Your task to perform on an android device: Search for "alienware area 51" on amazon.com, select the first entry, add it to the cart, then select checkout. Image 0: 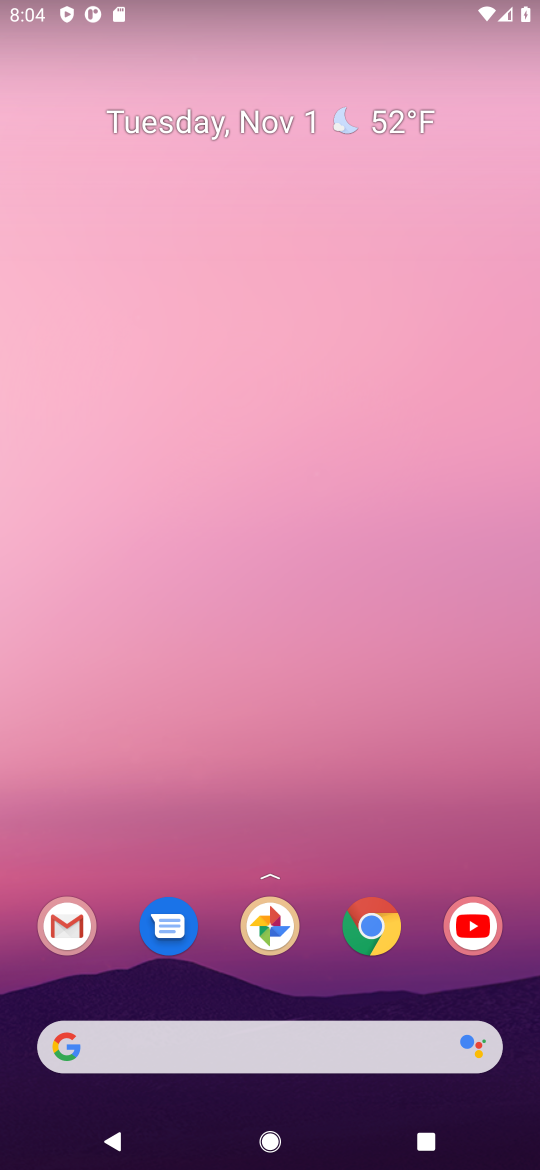
Step 0: click (348, 930)
Your task to perform on an android device: Search for "alienware area 51" on amazon.com, select the first entry, add it to the cart, then select checkout. Image 1: 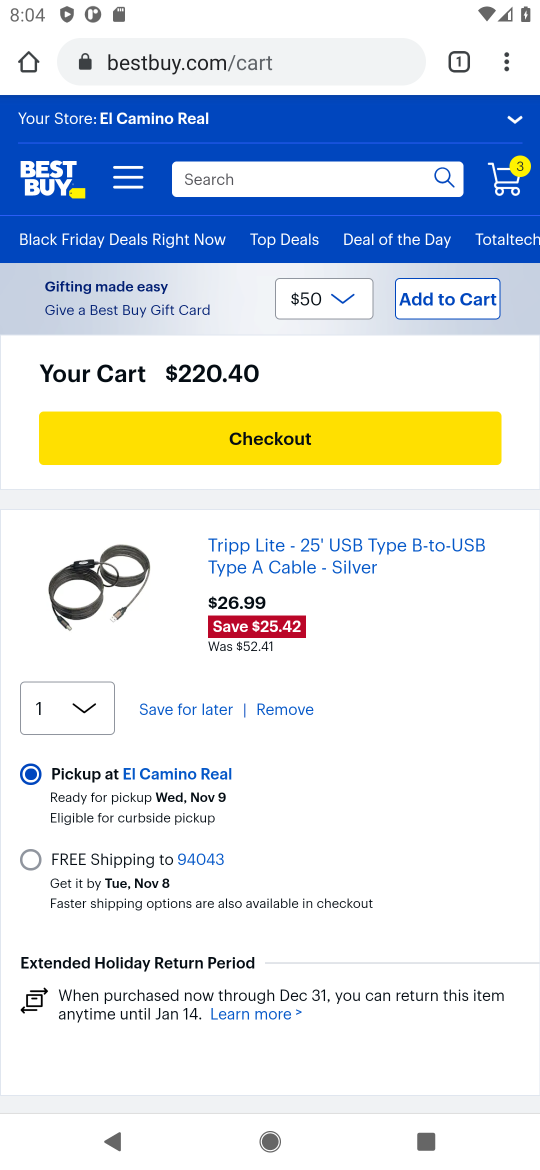
Step 1: click (180, 62)
Your task to perform on an android device: Search for "alienware area 51" on amazon.com, select the first entry, add it to the cart, then select checkout. Image 2: 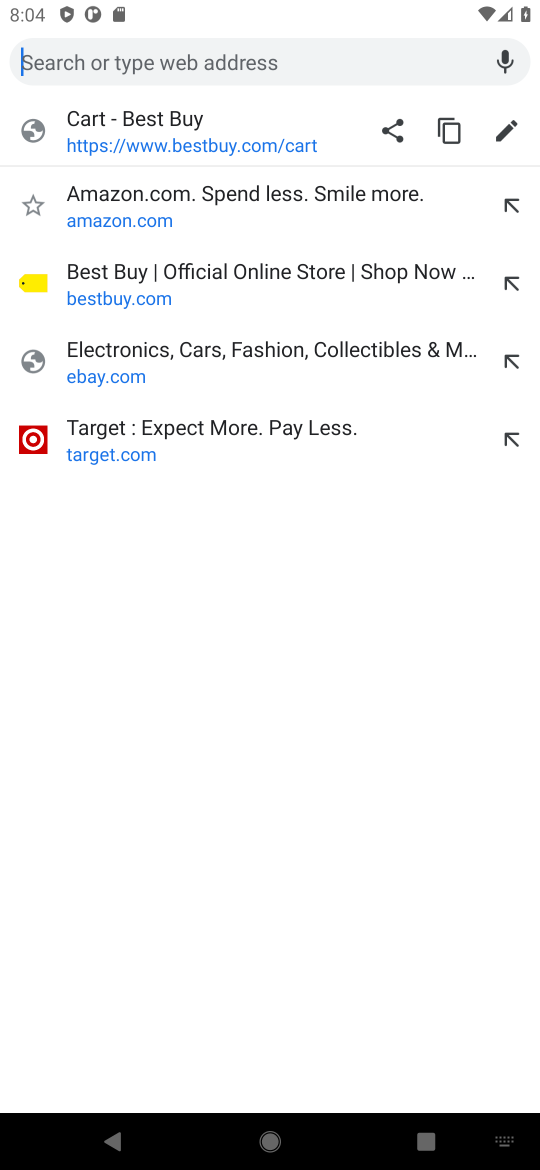
Step 2: type "amazon.com"
Your task to perform on an android device: Search for "alienware area 51" on amazon.com, select the first entry, add it to the cart, then select checkout. Image 3: 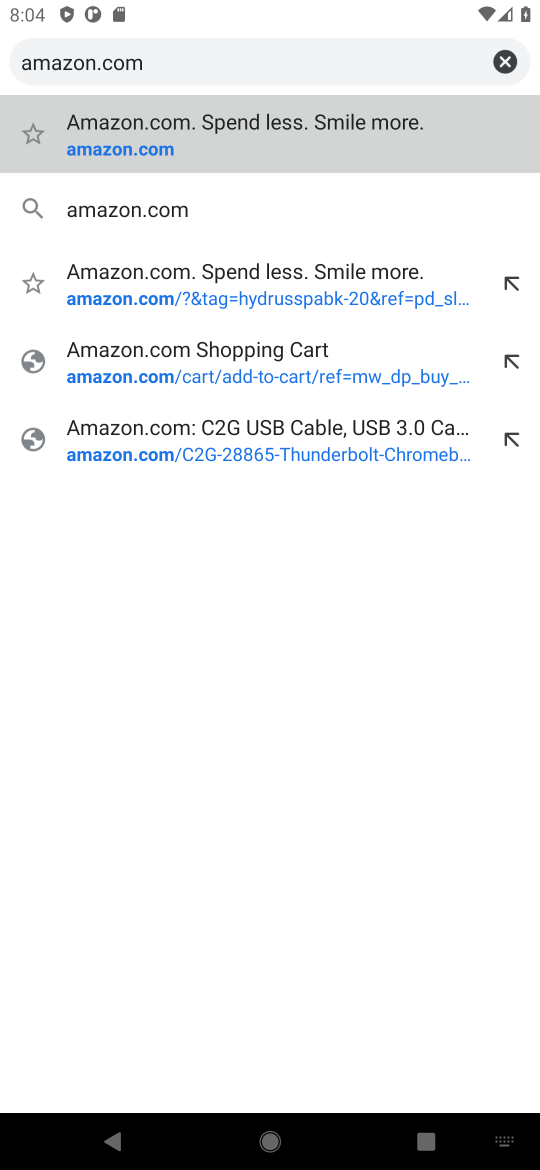
Step 3: click (112, 142)
Your task to perform on an android device: Search for "alienware area 51" on amazon.com, select the first entry, add it to the cart, then select checkout. Image 4: 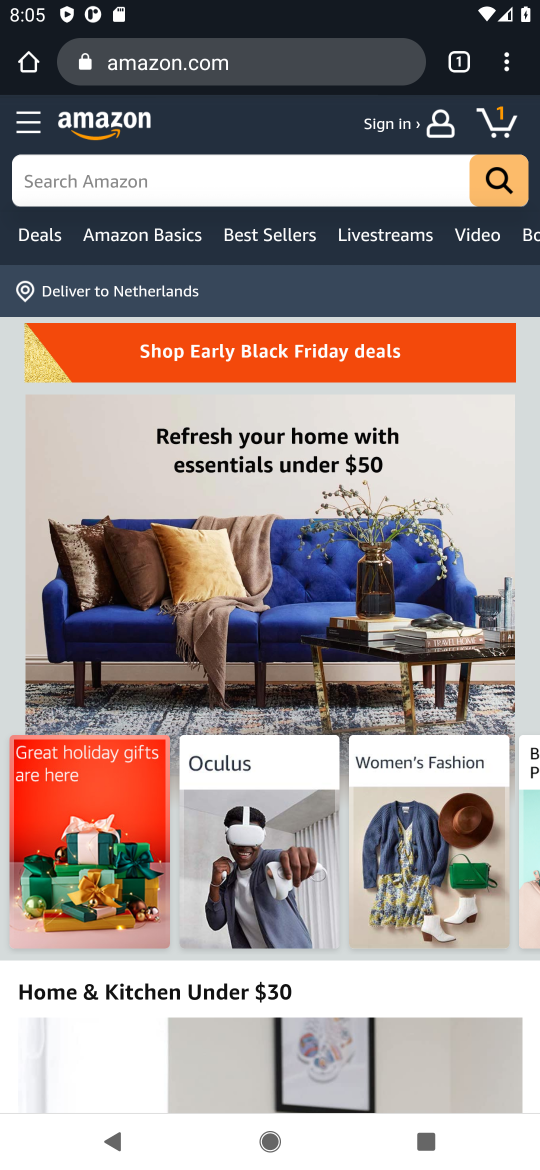
Step 4: click (97, 177)
Your task to perform on an android device: Search for "alienware area 51" on amazon.com, select the first entry, add it to the cart, then select checkout. Image 5: 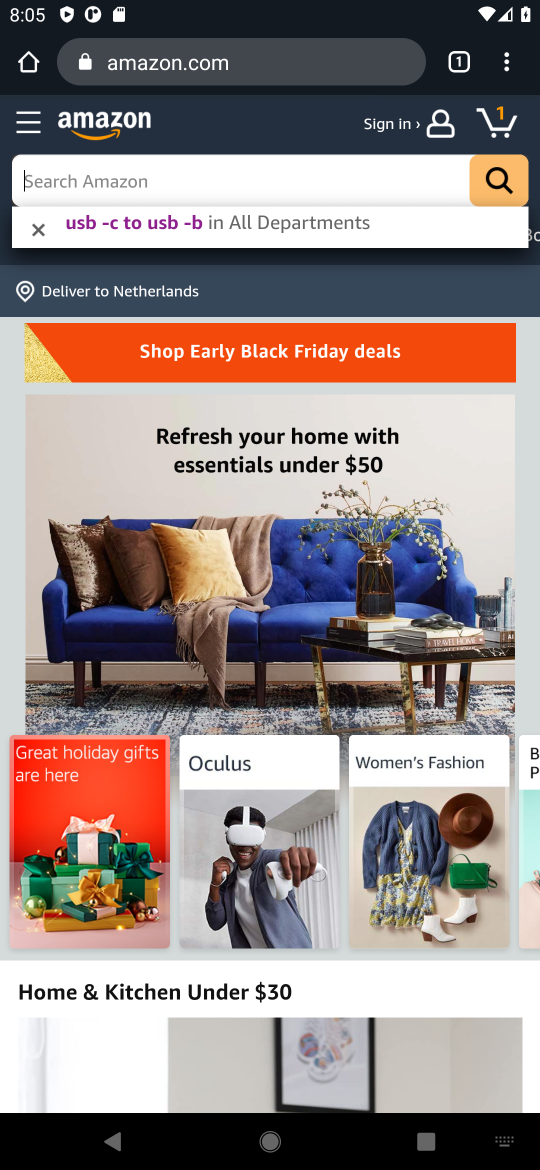
Step 5: type "alienware area 51"
Your task to perform on an android device: Search for "alienware area 51" on amazon.com, select the first entry, add it to the cart, then select checkout. Image 6: 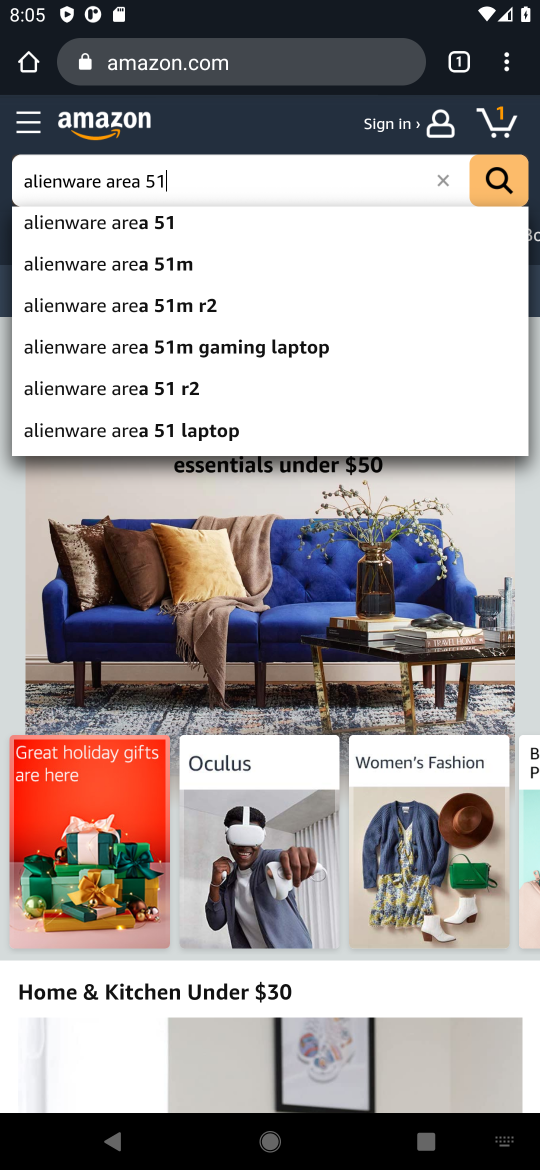
Step 6: type ""
Your task to perform on an android device: Search for "alienware area 51" on amazon.com, select the first entry, add it to the cart, then select checkout. Image 7: 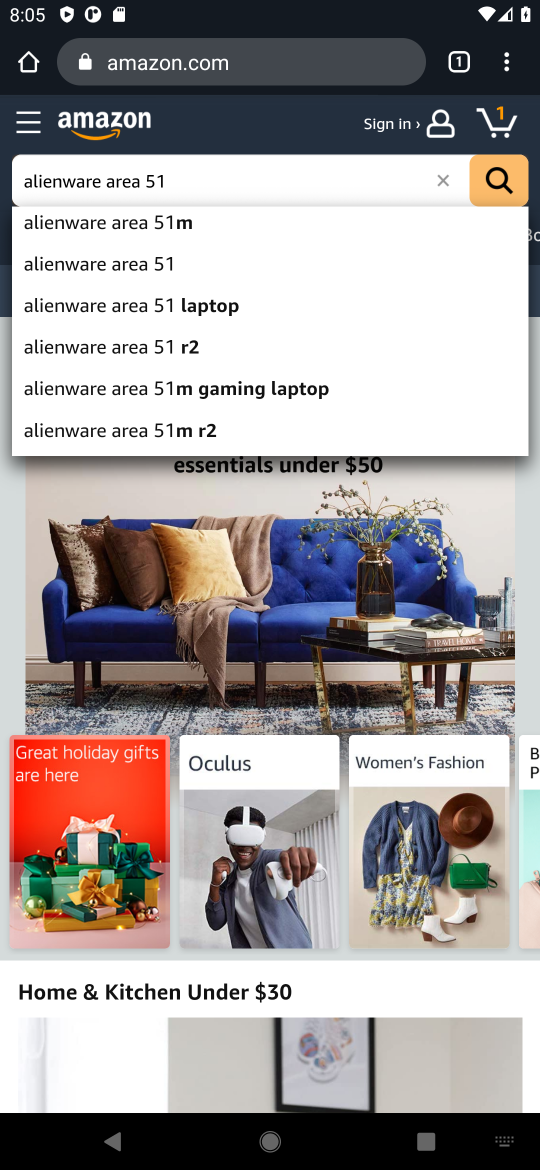
Step 7: click (119, 216)
Your task to perform on an android device: Search for "alienware area 51" on amazon.com, select the first entry, add it to the cart, then select checkout. Image 8: 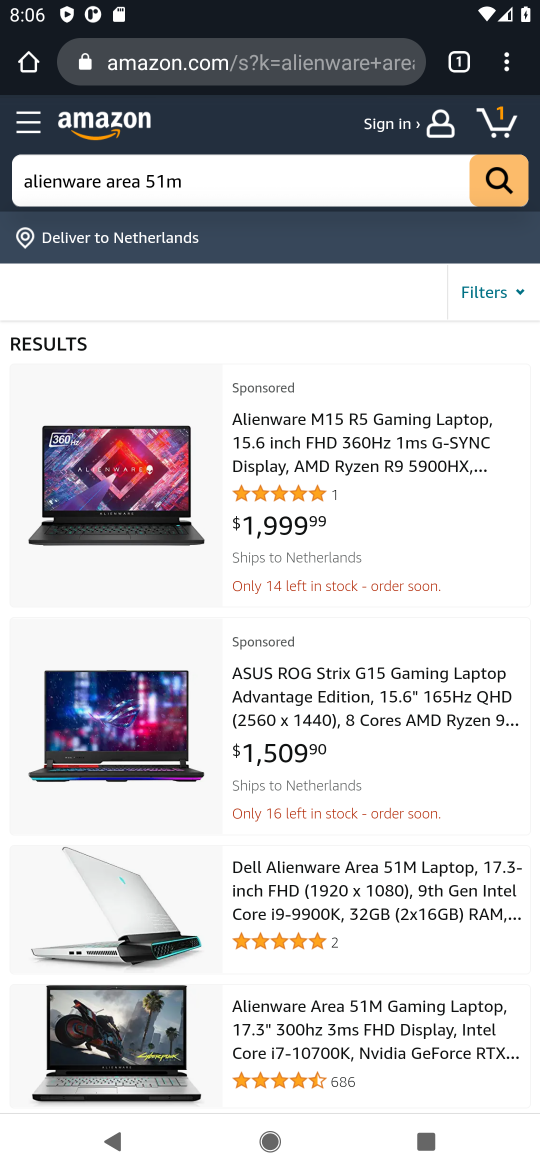
Step 8: click (296, 425)
Your task to perform on an android device: Search for "alienware area 51" on amazon.com, select the first entry, add it to the cart, then select checkout. Image 9: 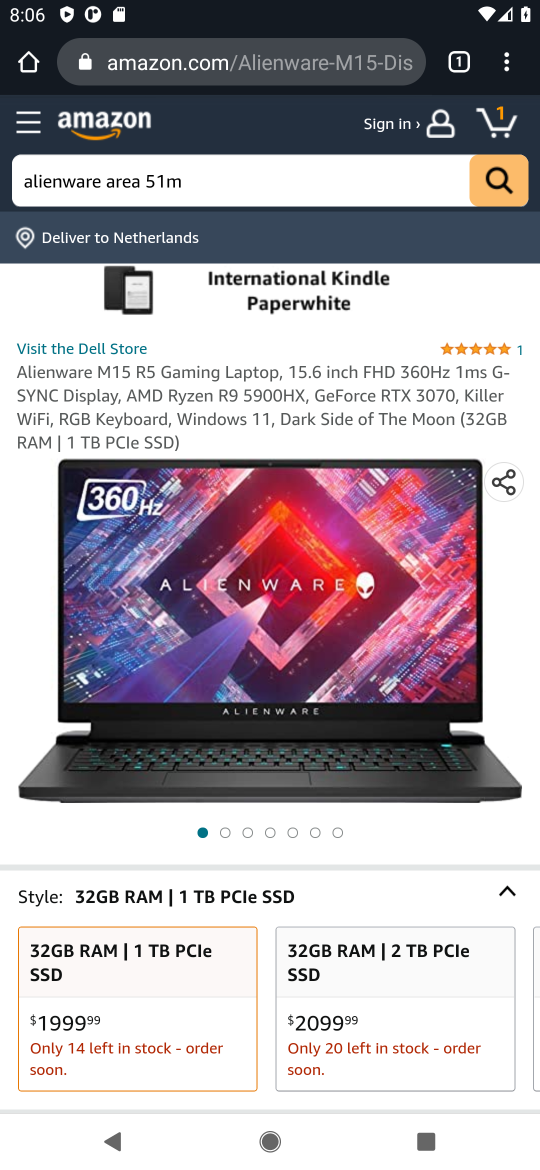
Step 9: drag from (188, 674) to (211, 436)
Your task to perform on an android device: Search for "alienware area 51" on amazon.com, select the first entry, add it to the cart, then select checkout. Image 10: 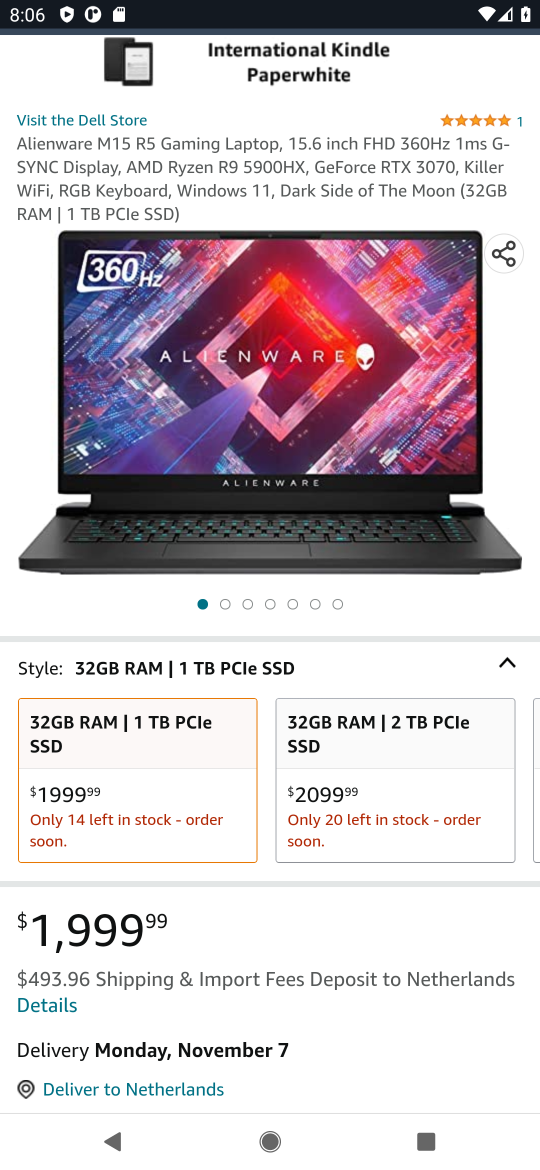
Step 10: drag from (130, 975) to (244, 275)
Your task to perform on an android device: Search for "alienware area 51" on amazon.com, select the first entry, add it to the cart, then select checkout. Image 11: 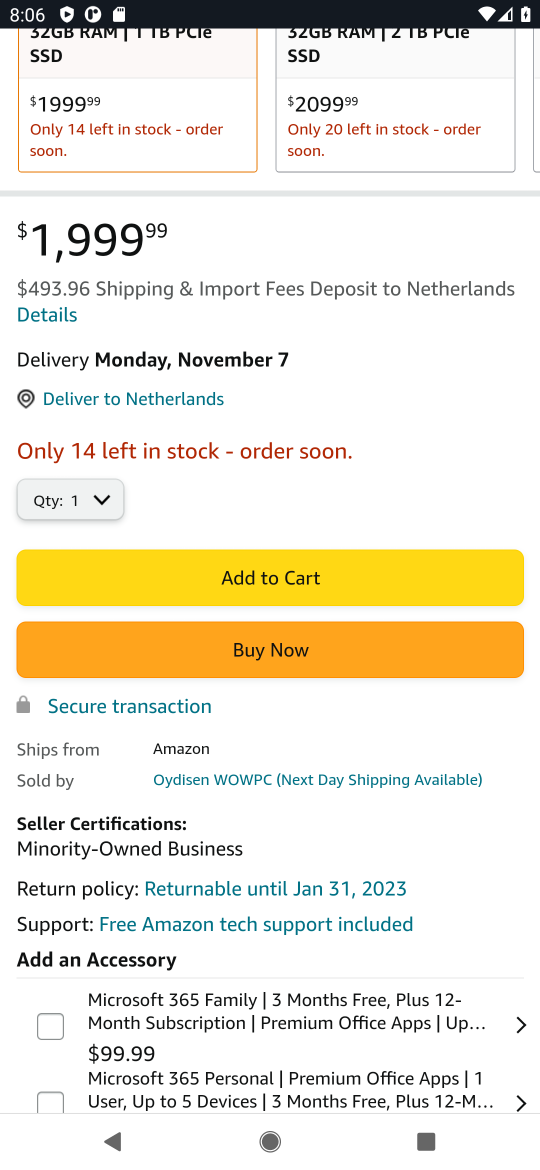
Step 11: click (231, 574)
Your task to perform on an android device: Search for "alienware area 51" on amazon.com, select the first entry, add it to the cart, then select checkout. Image 12: 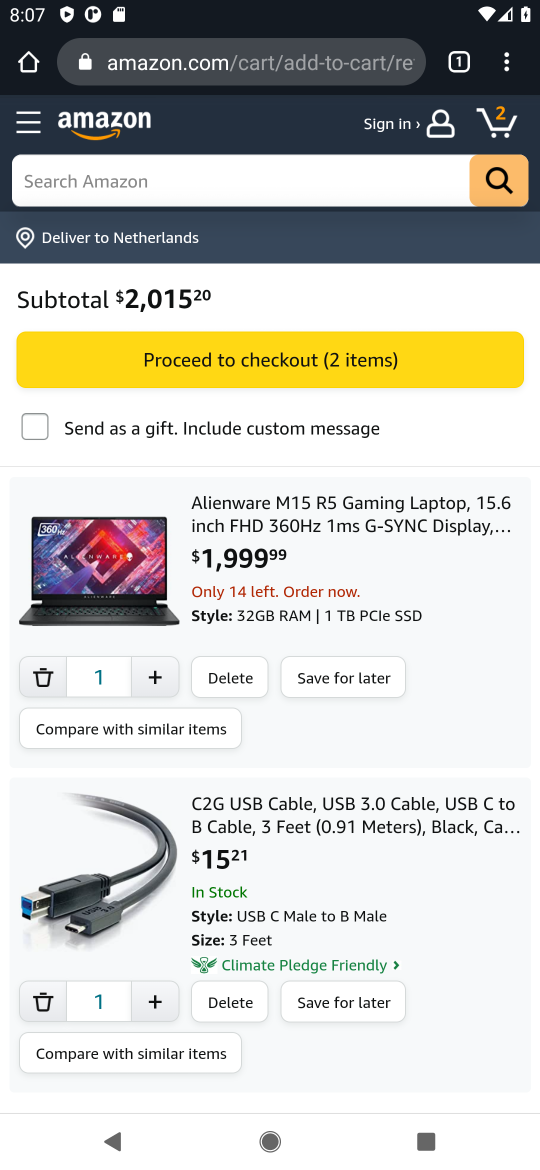
Step 12: click (232, 368)
Your task to perform on an android device: Search for "alienware area 51" on amazon.com, select the first entry, add it to the cart, then select checkout. Image 13: 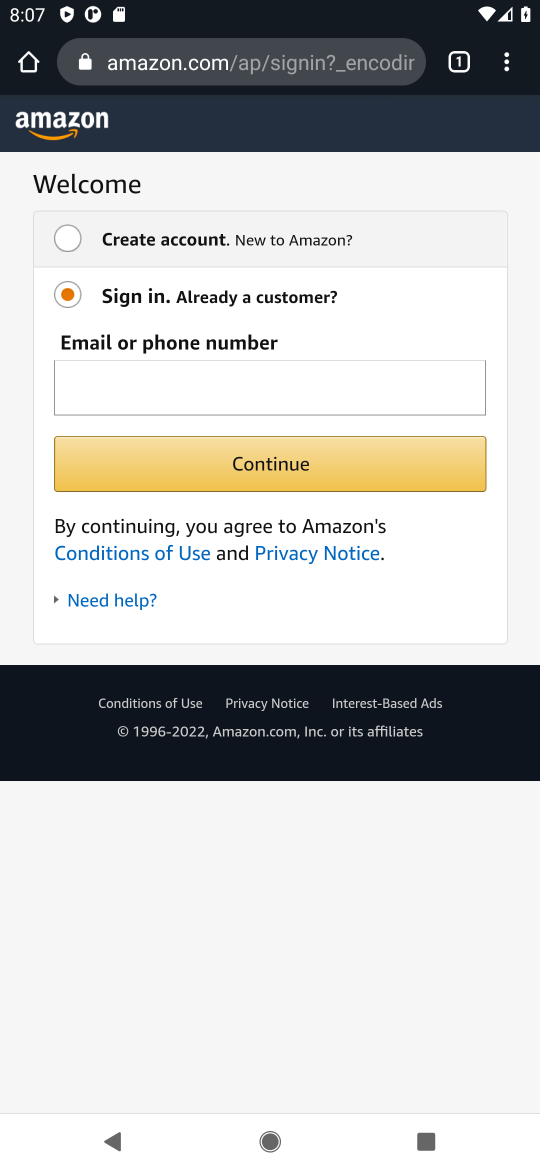
Step 13: press home button
Your task to perform on an android device: Search for "alienware area 51" on amazon.com, select the first entry, add it to the cart, then select checkout. Image 14: 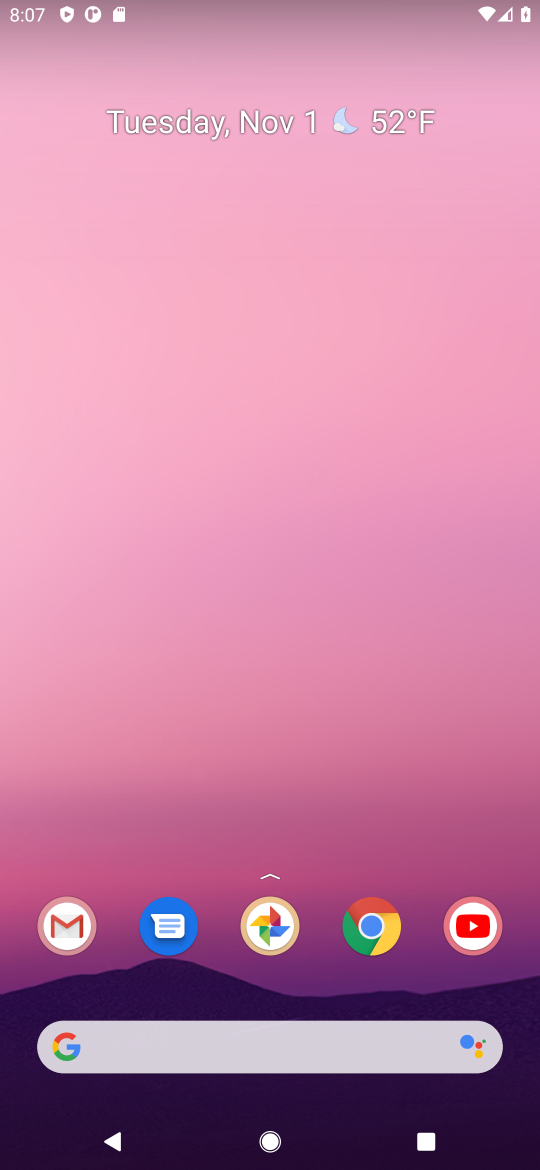
Step 14: click (122, 13)
Your task to perform on an android device: Search for "alienware area 51" on amazon.com, select the first entry, add it to the cart, then select checkout. Image 15: 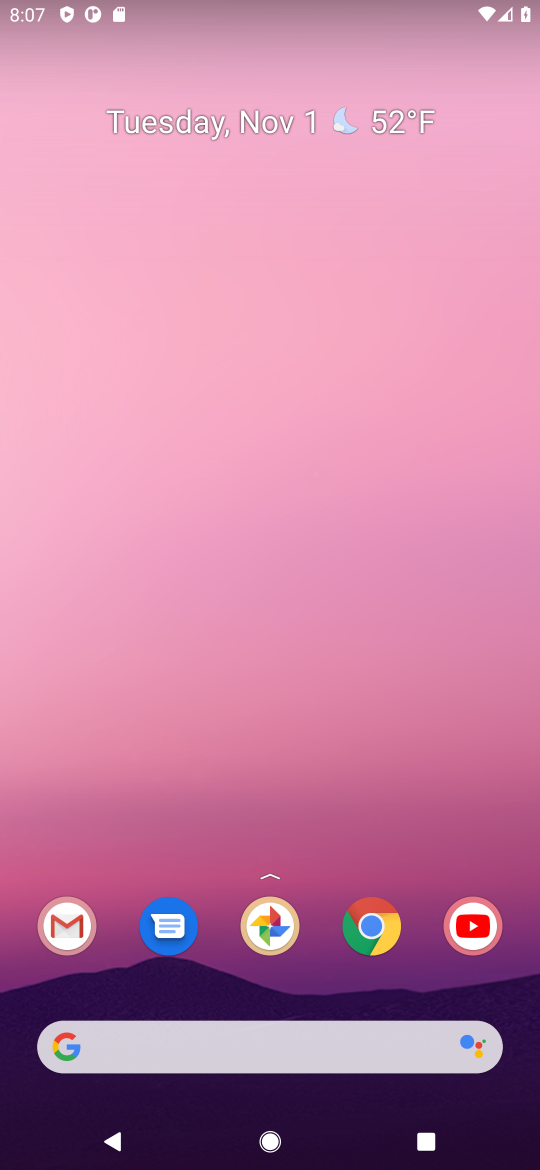
Step 15: click (369, 936)
Your task to perform on an android device: Search for "alienware area 51" on amazon.com, select the first entry, add it to the cart, then select checkout. Image 16: 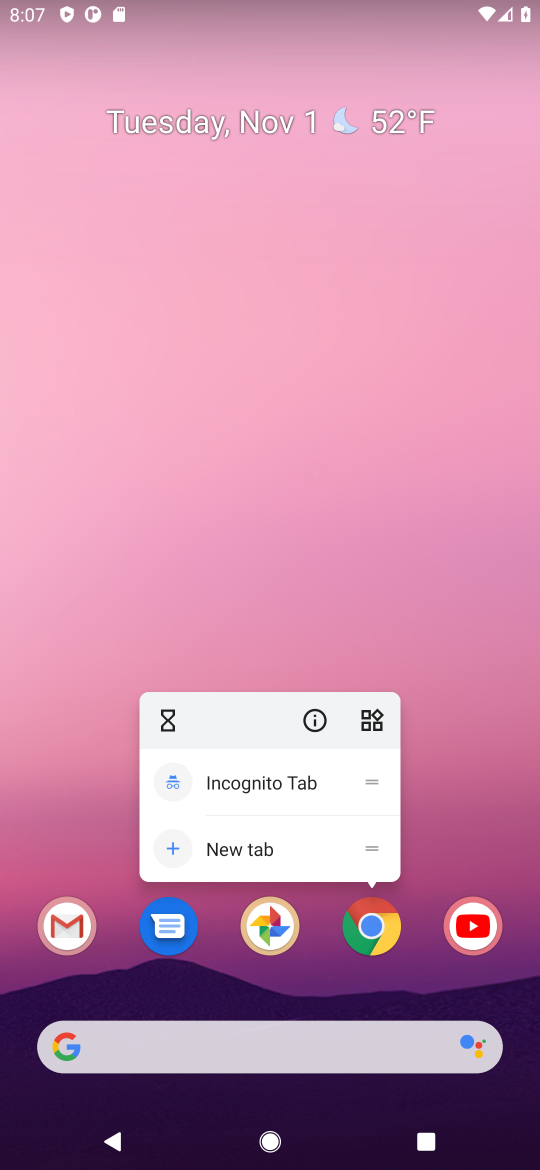
Step 16: click (384, 918)
Your task to perform on an android device: Search for "alienware area 51" on amazon.com, select the first entry, add it to the cart, then select checkout. Image 17: 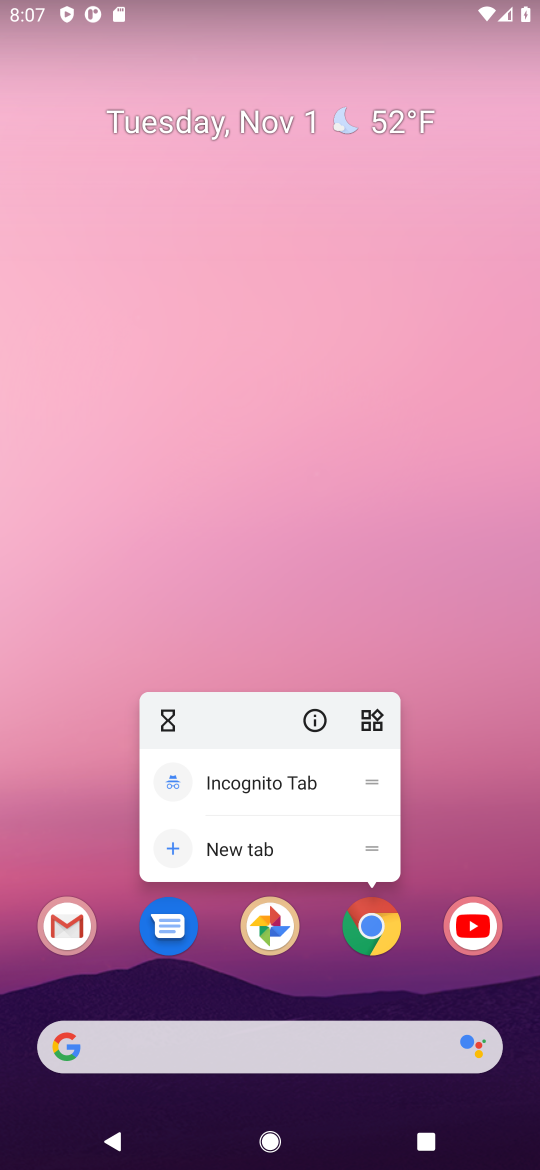
Step 17: click (391, 905)
Your task to perform on an android device: Search for "alienware area 51" on amazon.com, select the first entry, add it to the cart, then select checkout. Image 18: 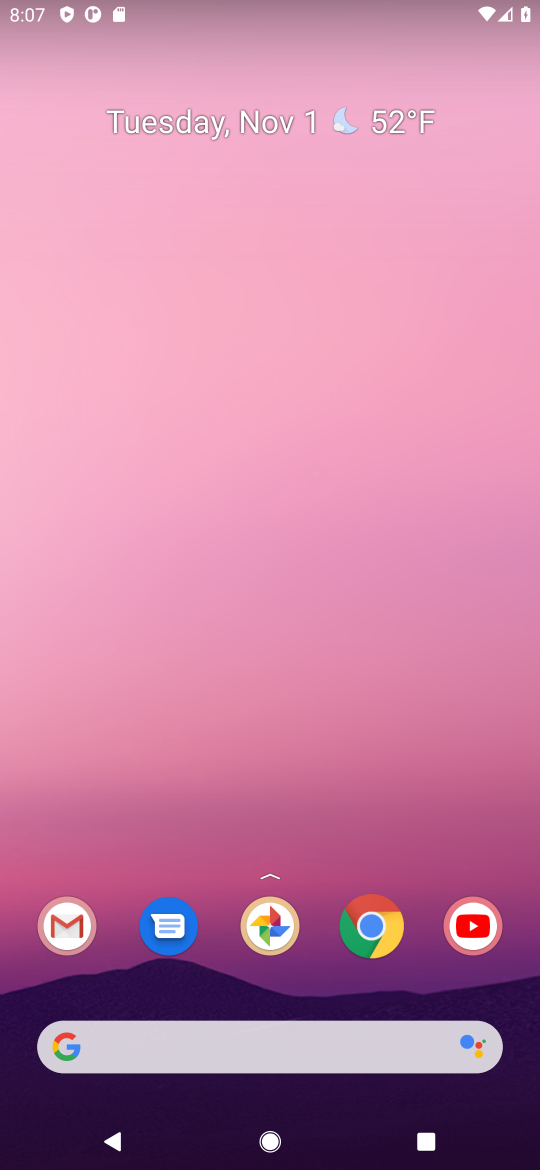
Step 18: click (384, 922)
Your task to perform on an android device: Search for "alienware area 51" on amazon.com, select the first entry, add it to the cart, then select checkout. Image 19: 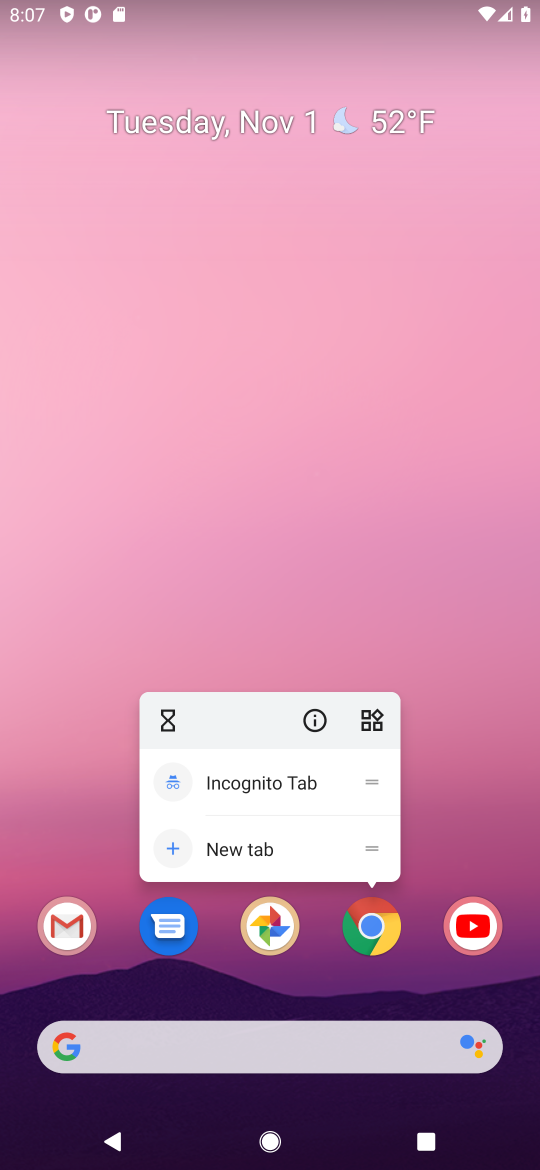
Step 19: click (383, 922)
Your task to perform on an android device: Search for "alienware area 51" on amazon.com, select the first entry, add it to the cart, then select checkout. Image 20: 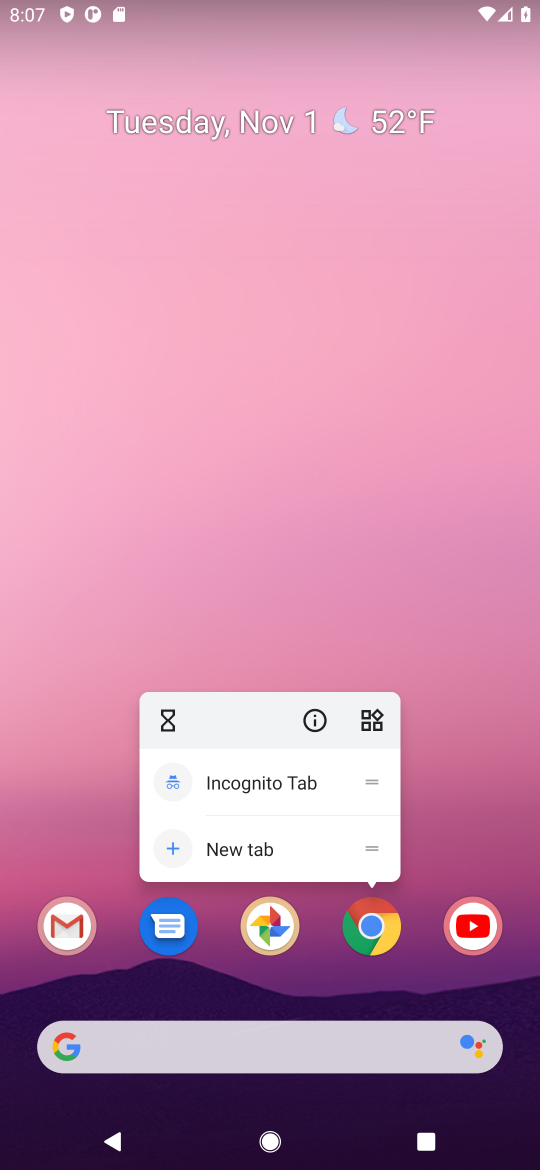
Step 20: click (385, 950)
Your task to perform on an android device: Search for "alienware area 51" on amazon.com, select the first entry, add it to the cart, then select checkout. Image 21: 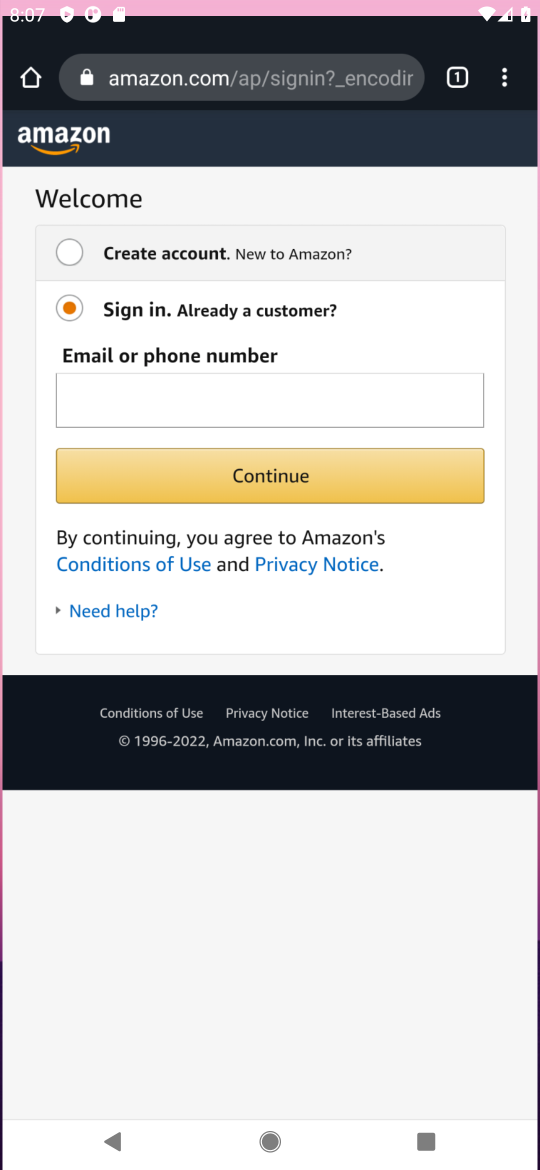
Step 21: press home button
Your task to perform on an android device: Search for "alienware area 51" on amazon.com, select the first entry, add it to the cart, then select checkout. Image 22: 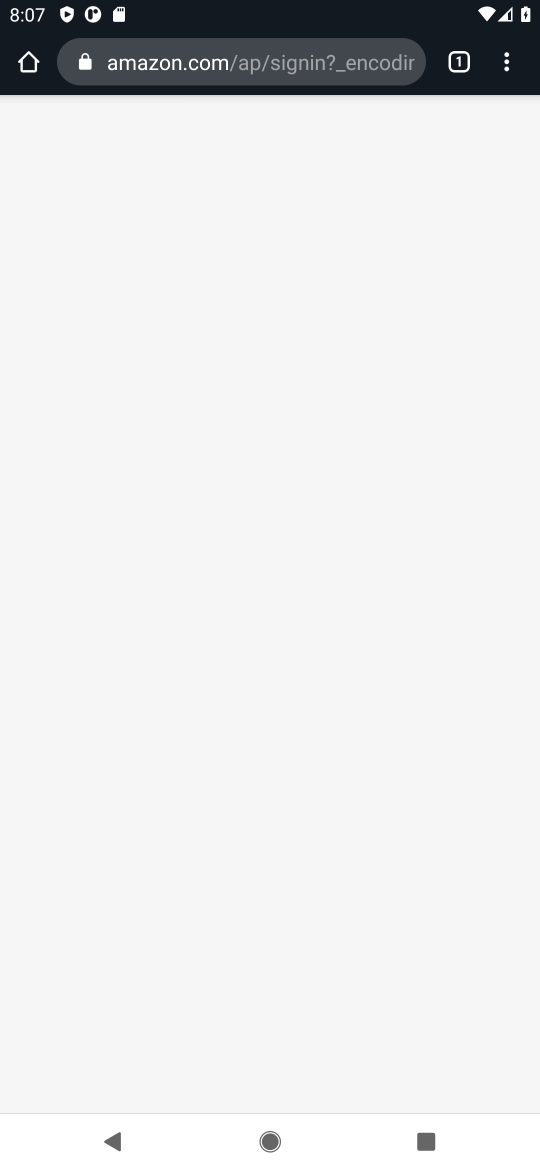
Step 22: press home button
Your task to perform on an android device: Search for "alienware area 51" on amazon.com, select the first entry, add it to the cart, then select checkout. Image 23: 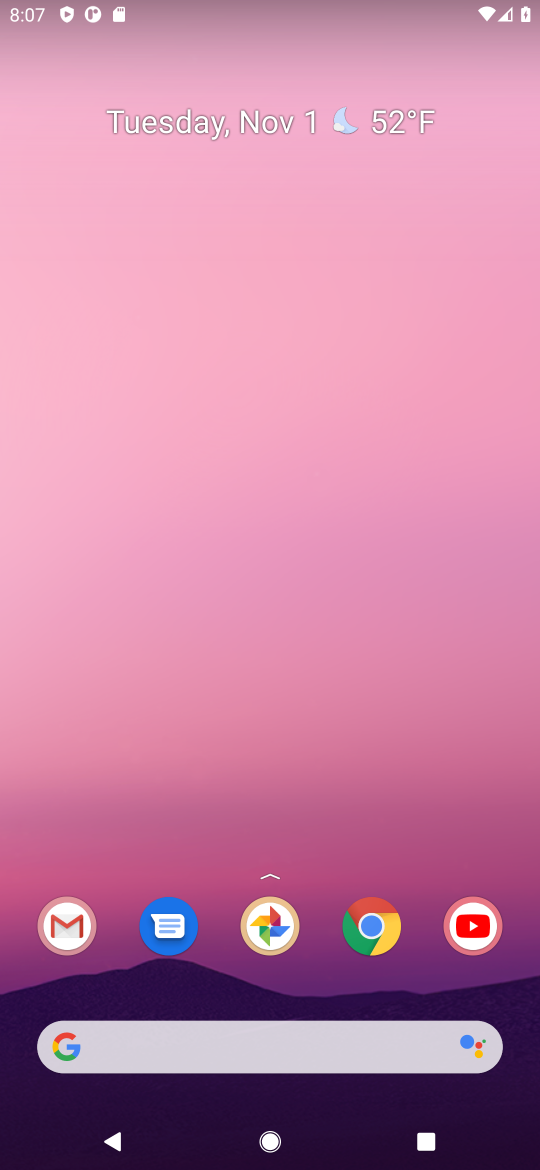
Step 23: click (189, 67)
Your task to perform on an android device: Search for "alienware area 51" on amazon.com, select the first entry, add it to the cart, then select checkout. Image 24: 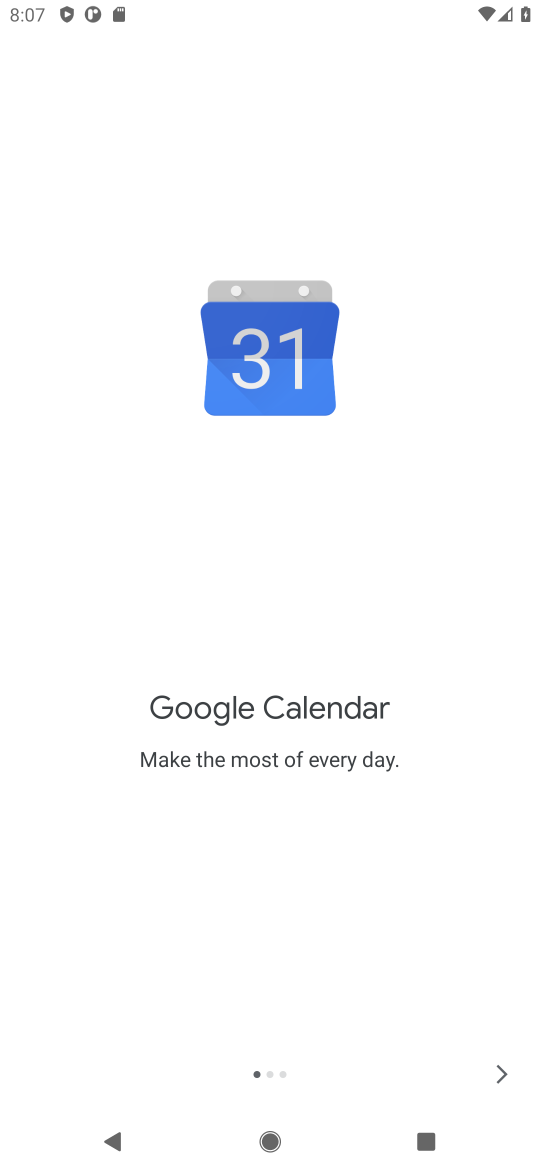
Step 24: press home button
Your task to perform on an android device: Search for "alienware area 51" on amazon.com, select the first entry, add it to the cart, then select checkout. Image 25: 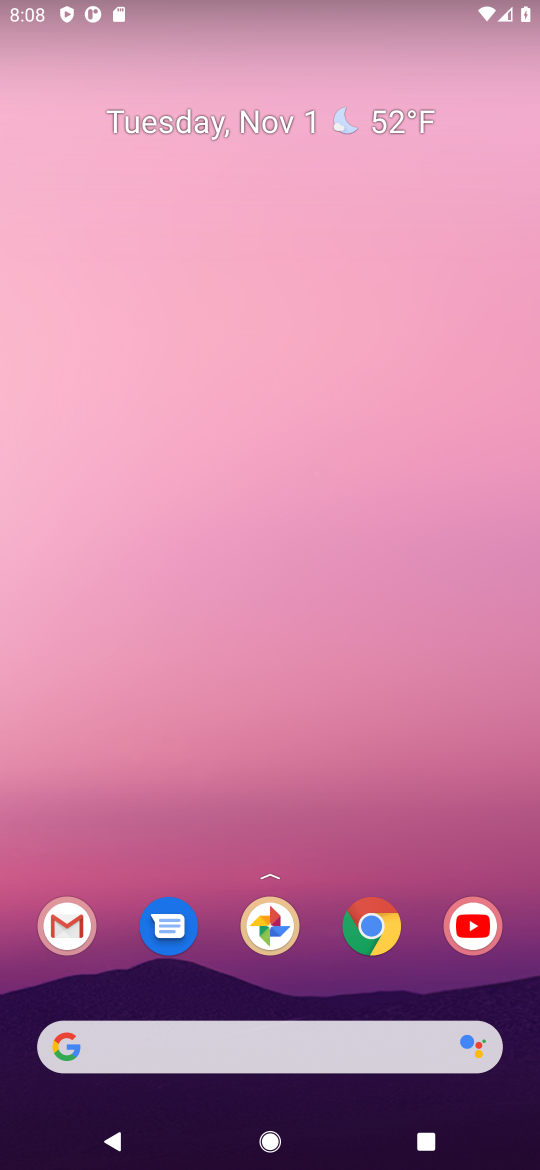
Step 25: click (375, 924)
Your task to perform on an android device: Search for "alienware area 51" on amazon.com, select the first entry, add it to the cart, then select checkout. Image 26: 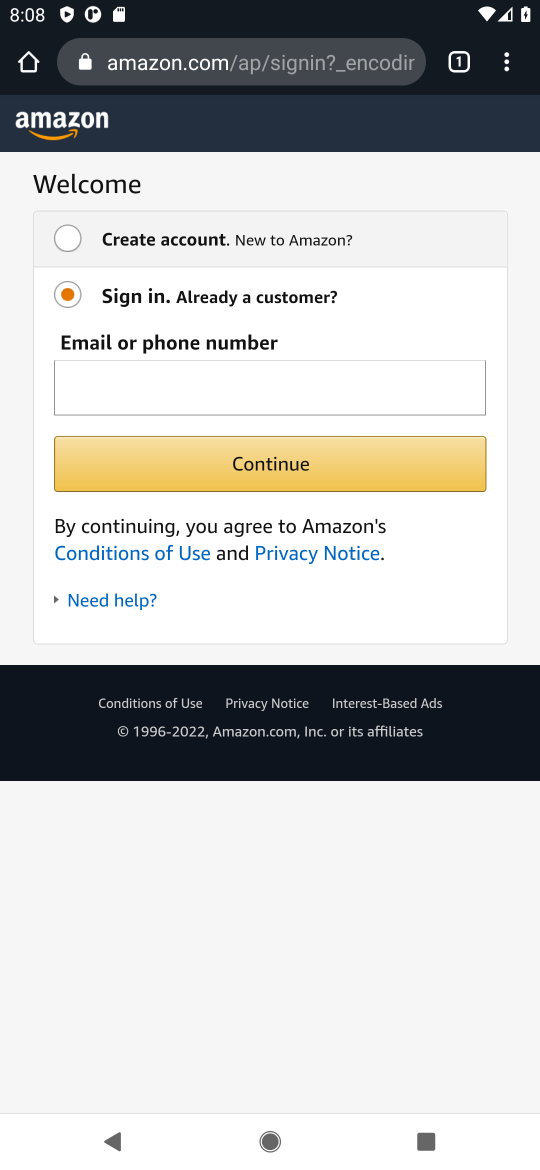
Step 26: click (131, 70)
Your task to perform on an android device: Search for "alienware area 51" on amazon.com, select the first entry, add it to the cart, then select checkout. Image 27: 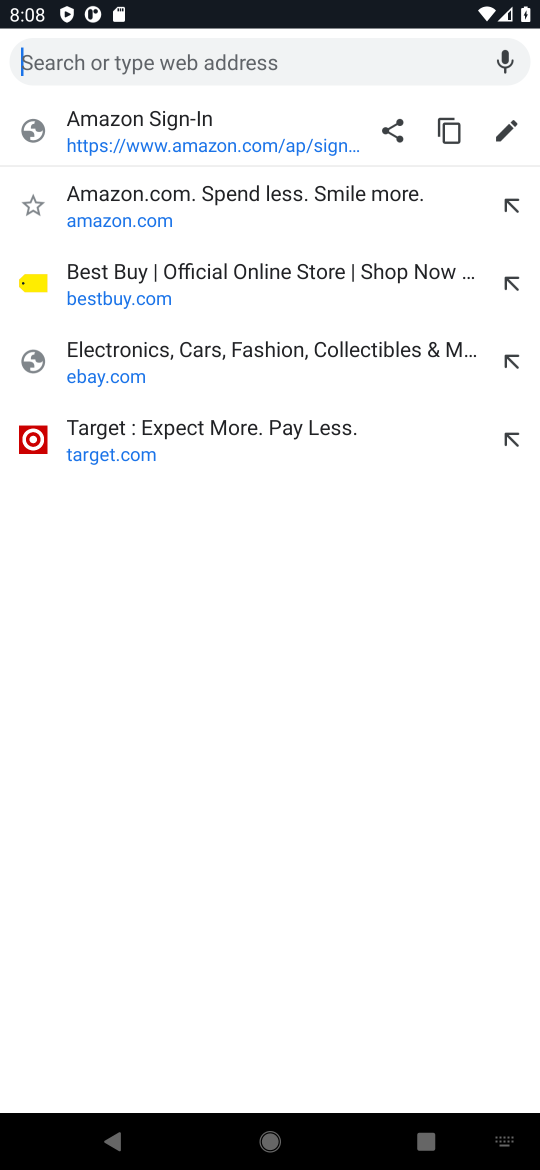
Step 27: click (99, 209)
Your task to perform on an android device: Search for "alienware area 51" on amazon.com, select the first entry, add it to the cart, then select checkout. Image 28: 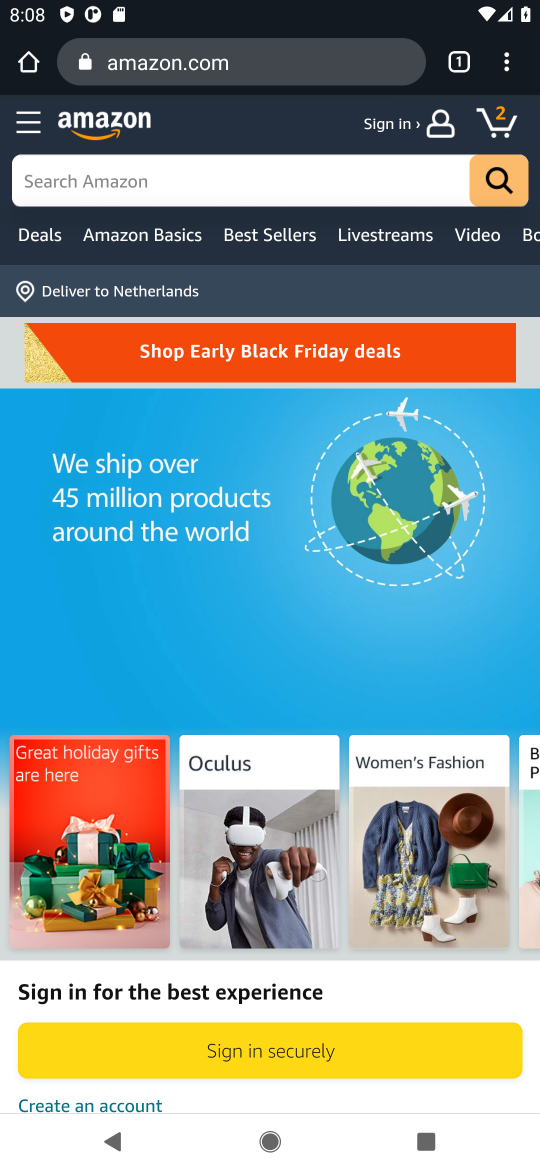
Step 28: click (97, 173)
Your task to perform on an android device: Search for "alienware area 51" on amazon.com, select the first entry, add it to the cart, then select checkout. Image 29: 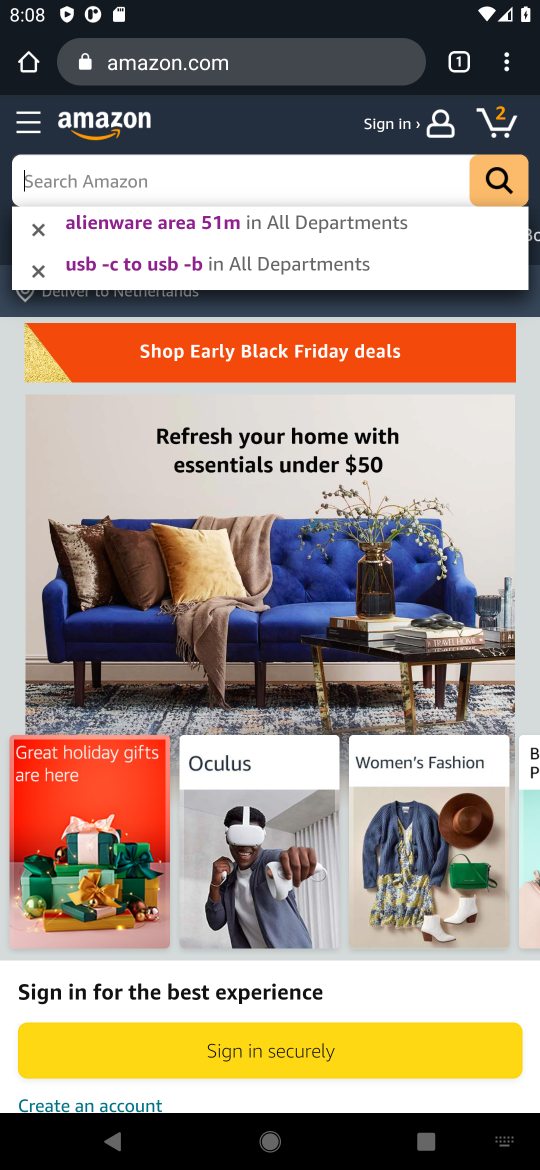
Step 29: type "allenware area 51"
Your task to perform on an android device: Search for "alienware area 51" on amazon.com, select the first entry, add it to the cart, then select checkout. Image 30: 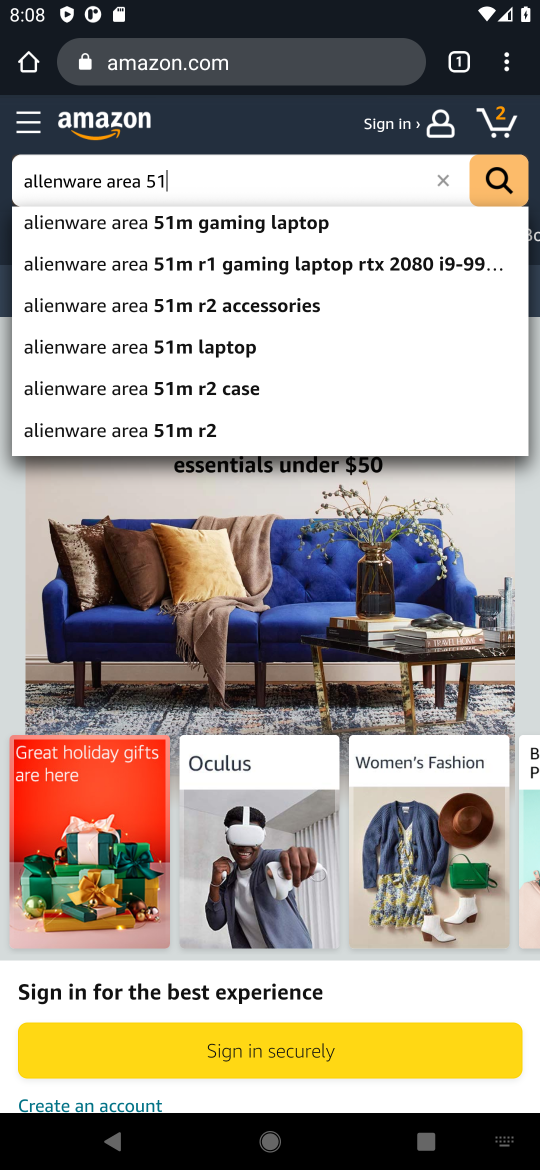
Step 30: type ""
Your task to perform on an android device: Search for "alienware area 51" on amazon.com, select the first entry, add it to the cart, then select checkout. Image 31: 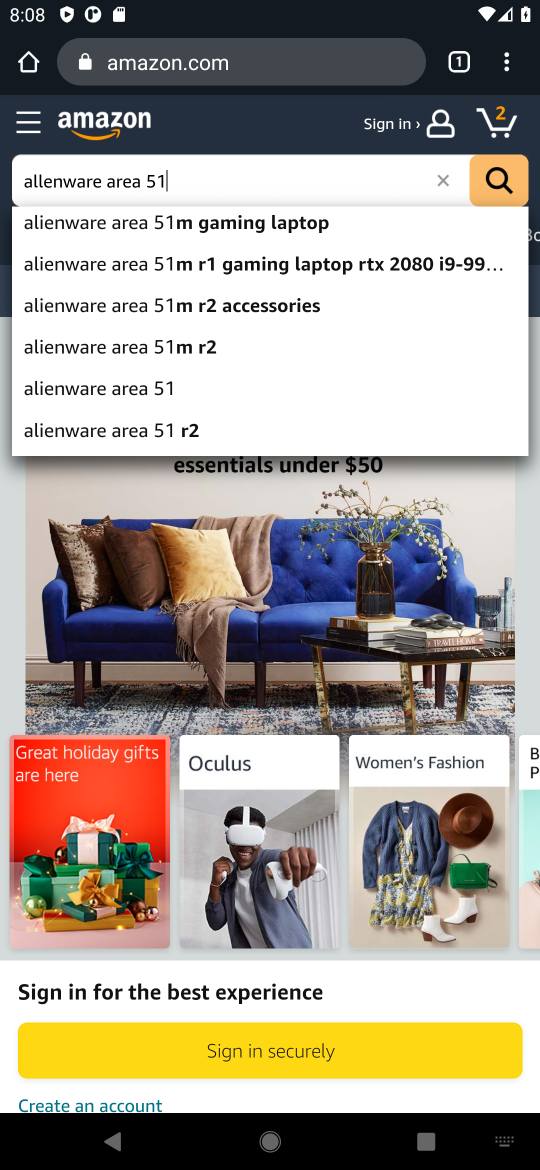
Step 31: click (116, 220)
Your task to perform on an android device: Search for "alienware area 51" on amazon.com, select the first entry, add it to the cart, then select checkout. Image 32: 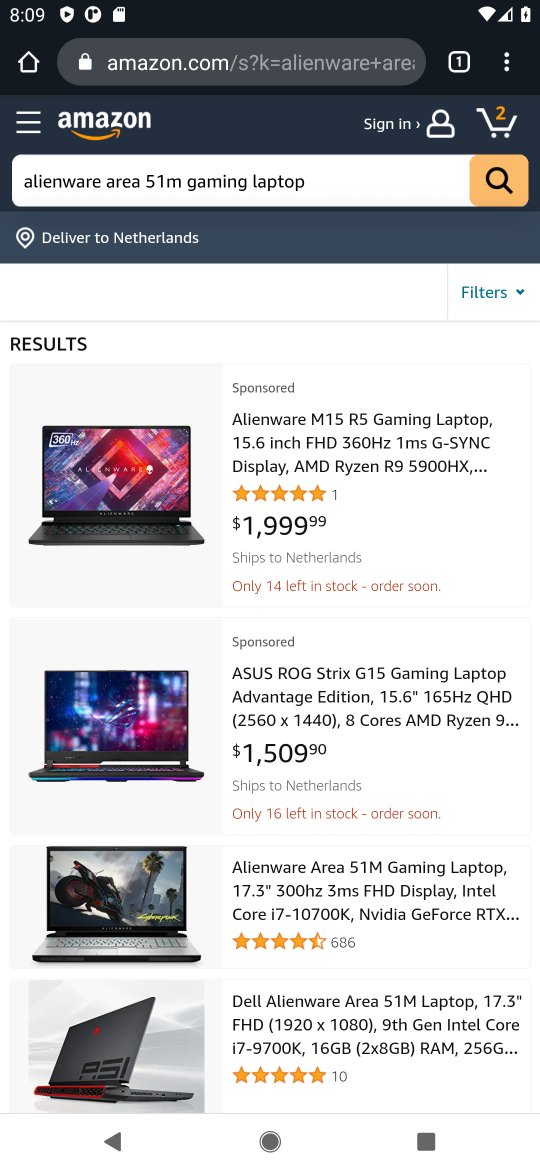
Step 32: drag from (301, 879) to (320, 411)
Your task to perform on an android device: Search for "alienware area 51" on amazon.com, select the first entry, add it to the cart, then select checkout. Image 33: 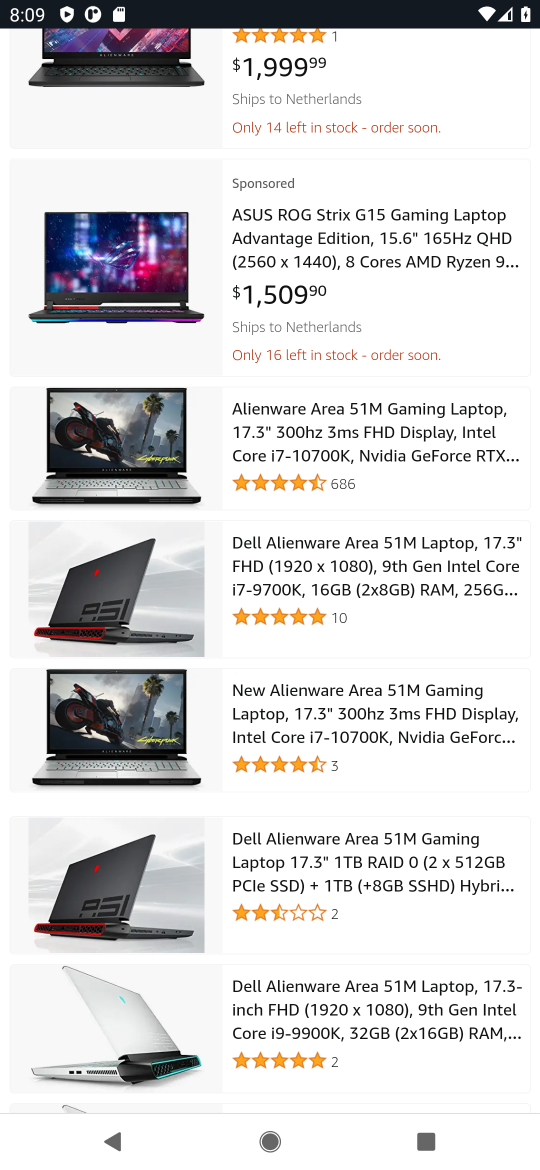
Step 33: click (297, 433)
Your task to perform on an android device: Search for "alienware area 51" on amazon.com, select the first entry, add it to the cart, then select checkout. Image 34: 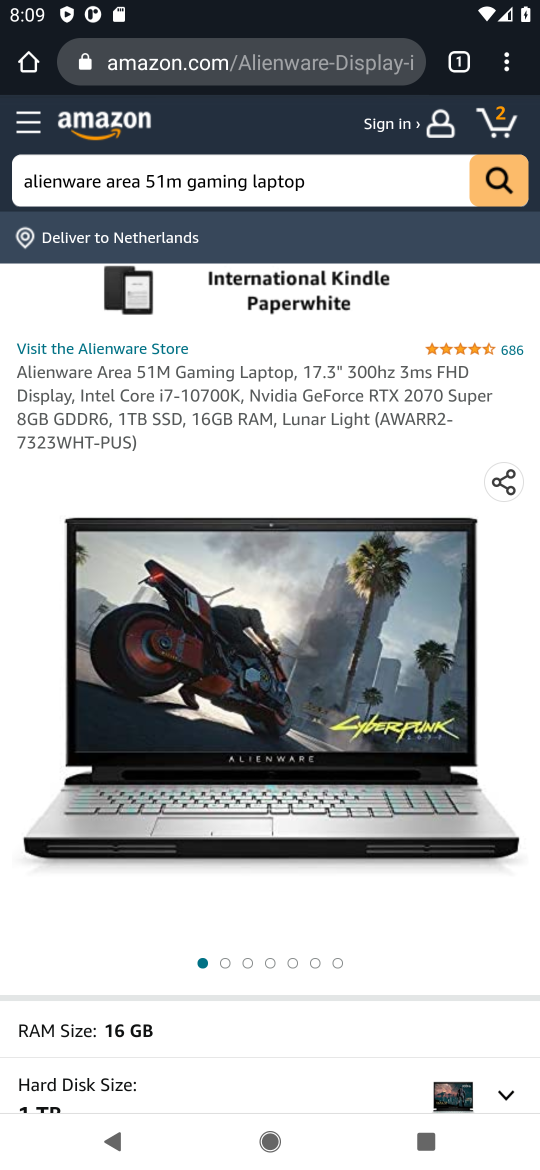
Step 34: drag from (163, 728) to (198, 99)
Your task to perform on an android device: Search for "alienware area 51" on amazon.com, select the first entry, add it to the cart, then select checkout. Image 35: 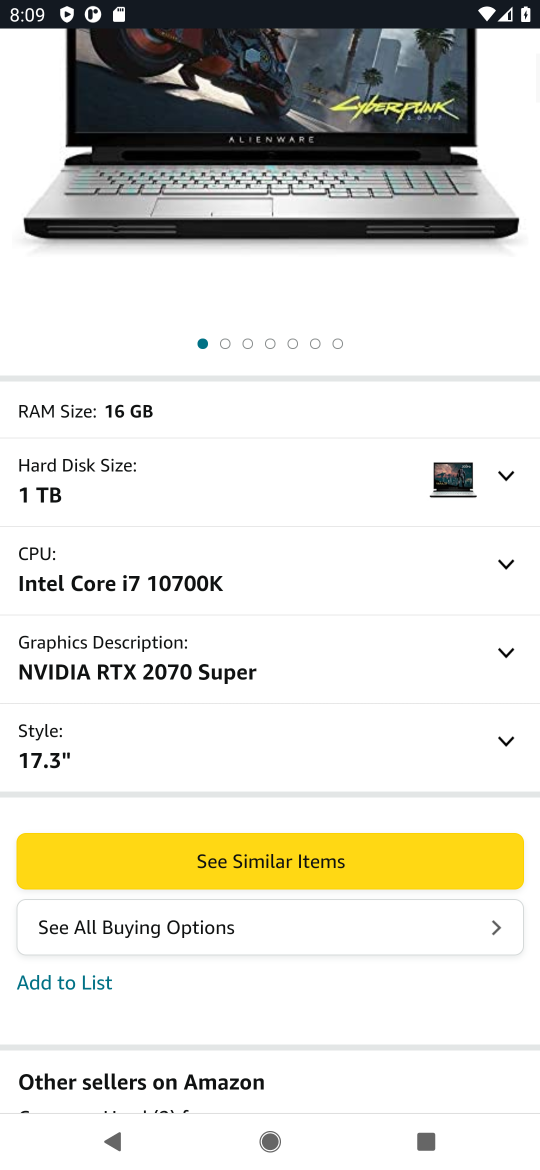
Step 35: drag from (153, 718) to (220, 267)
Your task to perform on an android device: Search for "alienware area 51" on amazon.com, select the first entry, add it to the cart, then select checkout. Image 36: 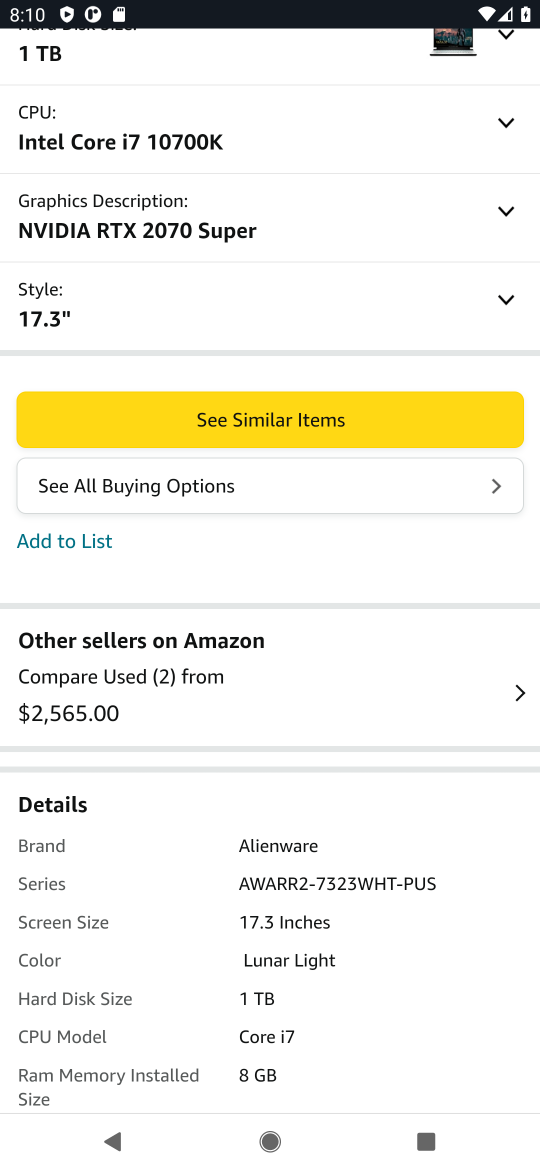
Step 36: drag from (238, 867) to (231, 231)
Your task to perform on an android device: Search for "alienware area 51" on amazon.com, select the first entry, add it to the cart, then select checkout. Image 37: 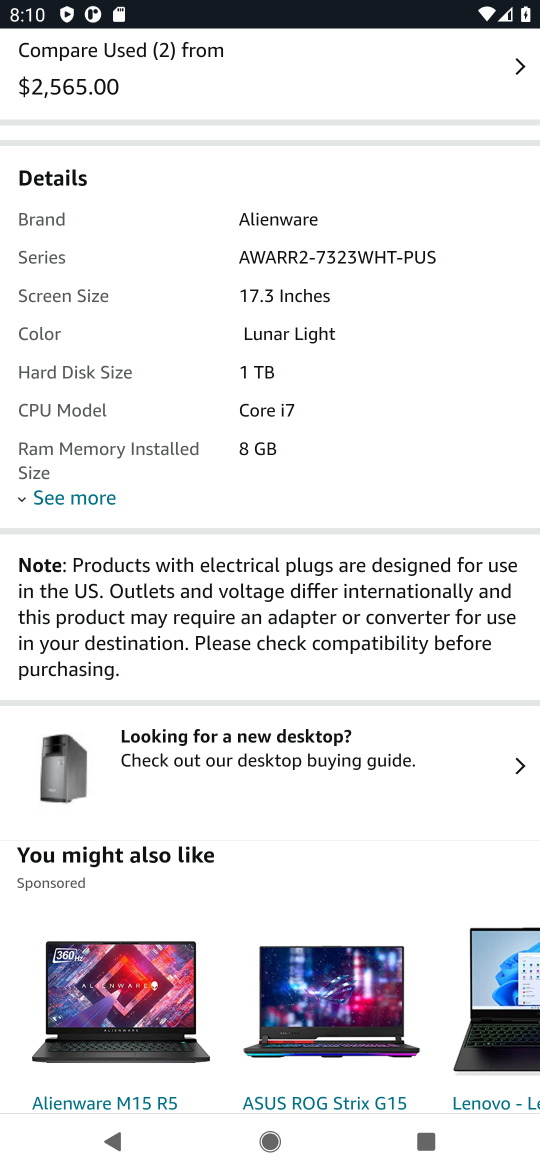
Step 37: drag from (177, 784) to (238, 206)
Your task to perform on an android device: Search for "alienware area 51" on amazon.com, select the first entry, add it to the cart, then select checkout. Image 38: 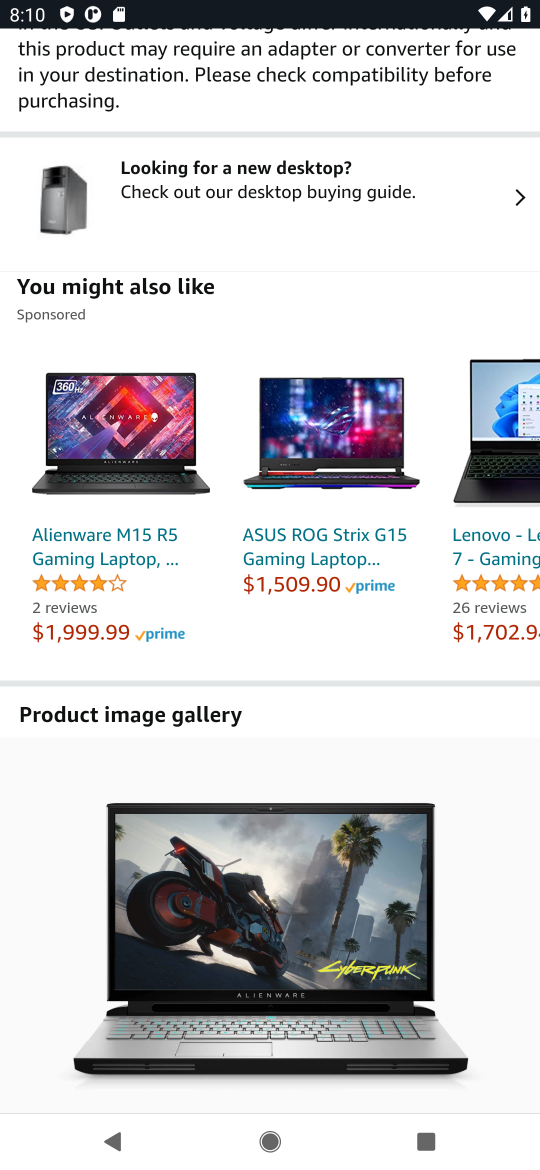
Step 38: drag from (246, 929) to (265, 518)
Your task to perform on an android device: Search for "alienware area 51" on amazon.com, select the first entry, add it to the cart, then select checkout. Image 39: 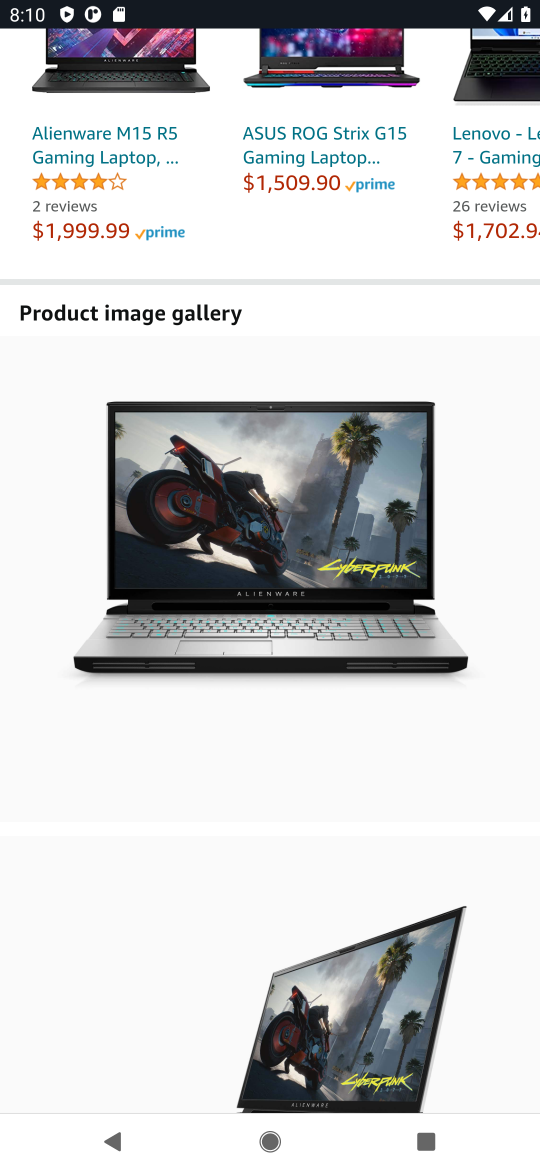
Step 39: drag from (171, 954) to (213, 337)
Your task to perform on an android device: Search for "alienware area 51" on amazon.com, select the first entry, add it to the cart, then select checkout. Image 40: 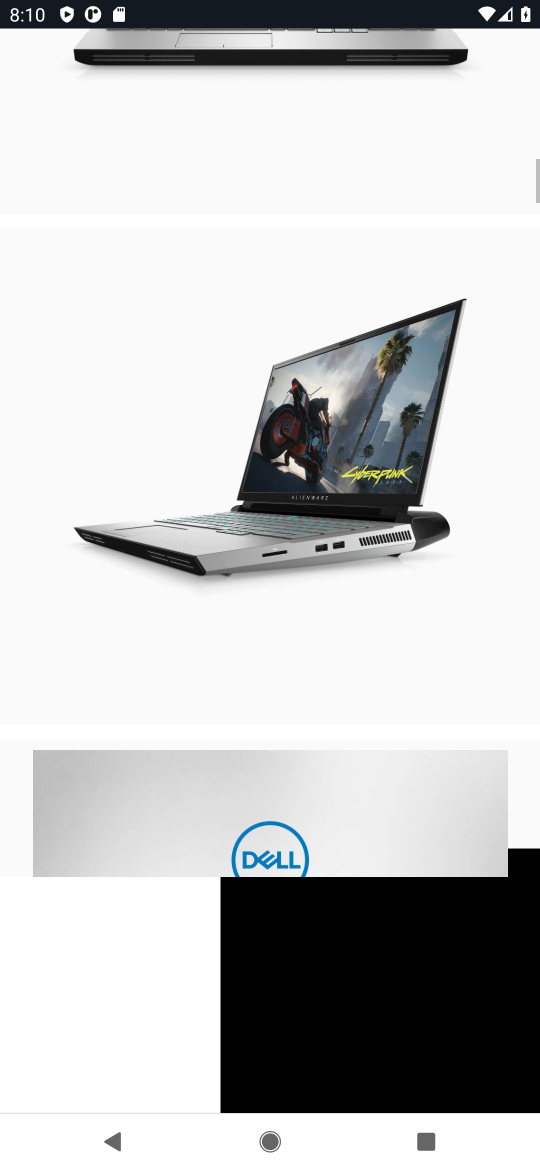
Step 40: drag from (175, 286) to (176, 1132)
Your task to perform on an android device: Search for "alienware area 51" on amazon.com, select the first entry, add it to the cart, then select checkout. Image 41: 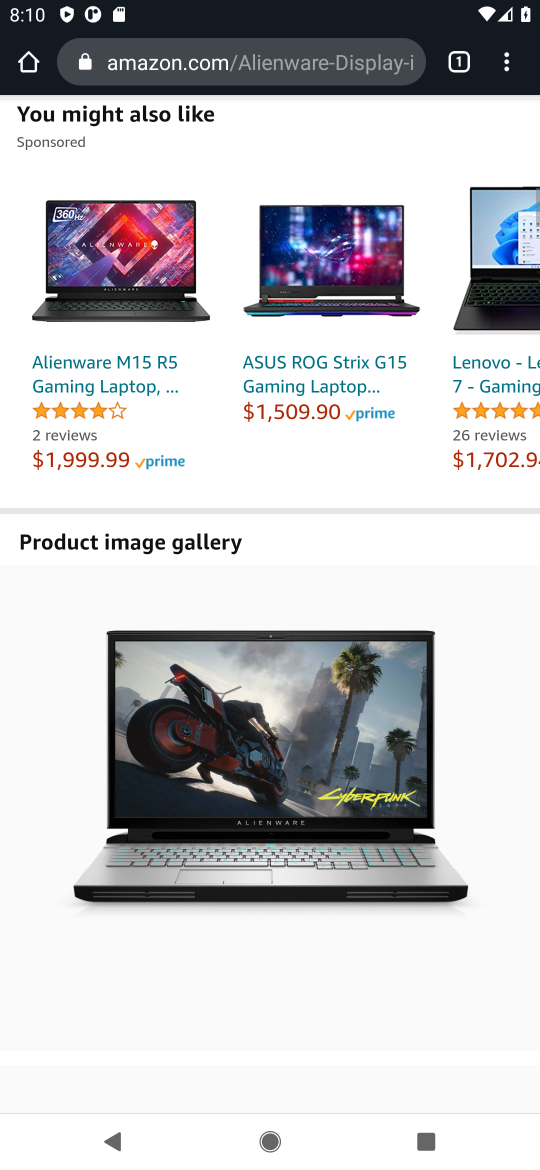
Step 41: drag from (221, 433) to (217, 1043)
Your task to perform on an android device: Search for "alienware area 51" on amazon.com, select the first entry, add it to the cart, then select checkout. Image 42: 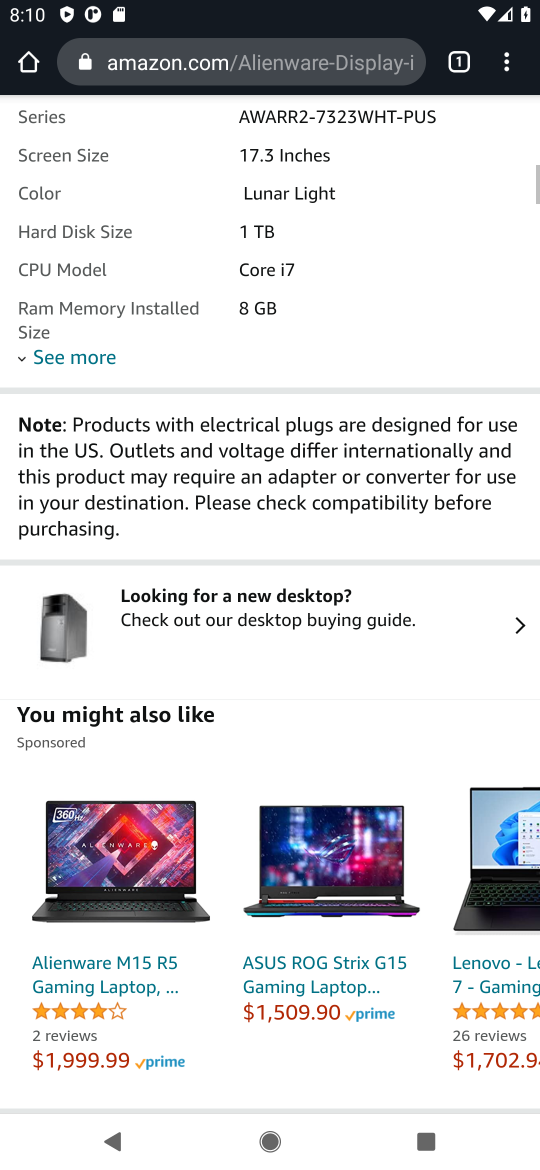
Step 42: drag from (205, 550) to (174, 979)
Your task to perform on an android device: Search for "alienware area 51" on amazon.com, select the first entry, add it to the cart, then select checkout. Image 43: 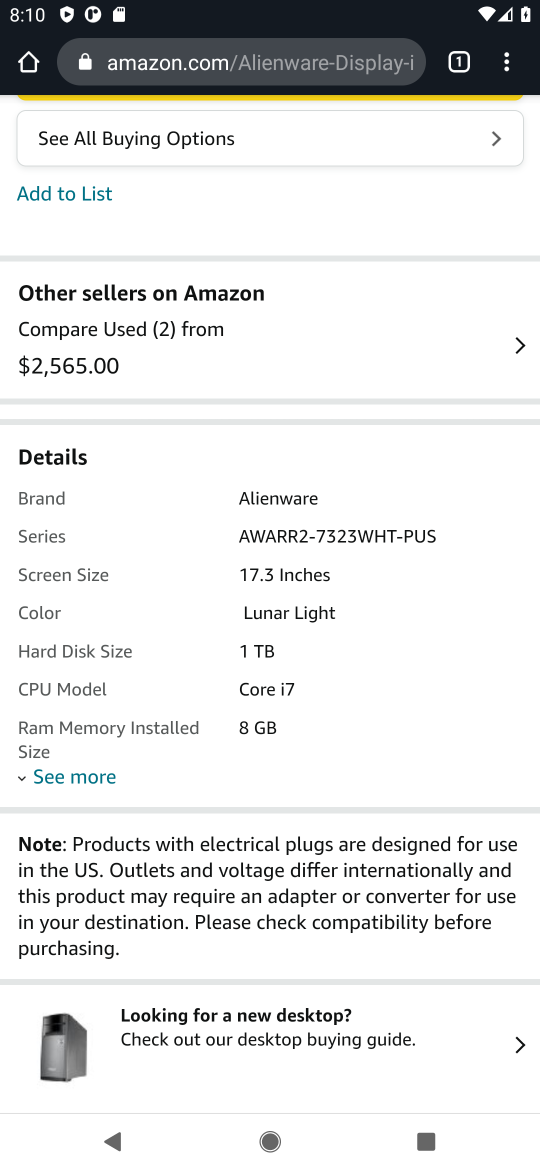
Step 43: drag from (381, 391) to (280, 1047)
Your task to perform on an android device: Search for "alienware area 51" on amazon.com, select the first entry, add it to the cart, then select checkout. Image 44: 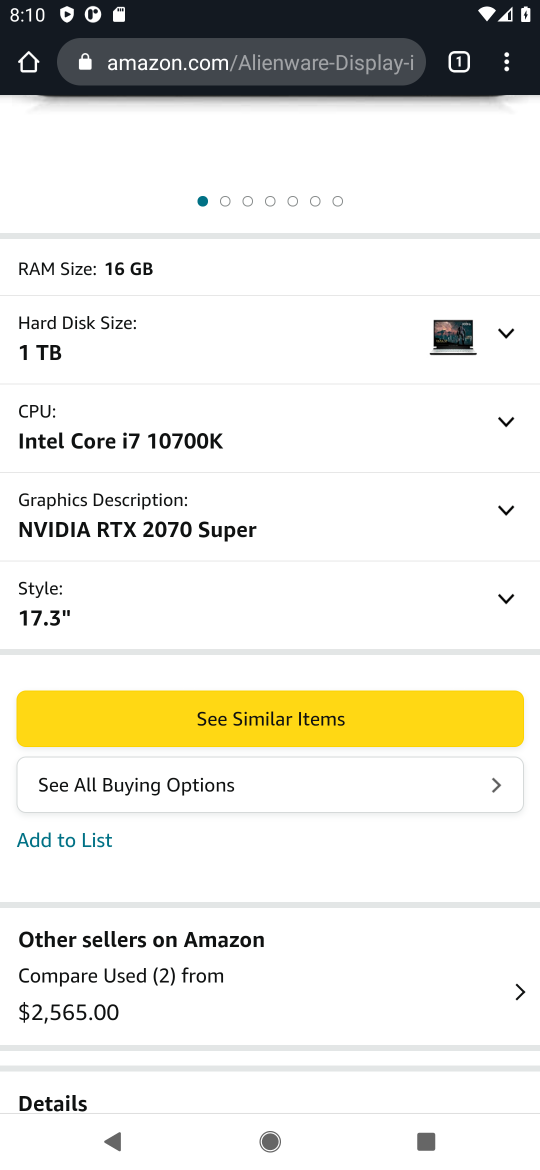
Step 44: drag from (303, 505) to (251, 1123)
Your task to perform on an android device: Search for "alienware area 51" on amazon.com, select the first entry, add it to the cart, then select checkout. Image 45: 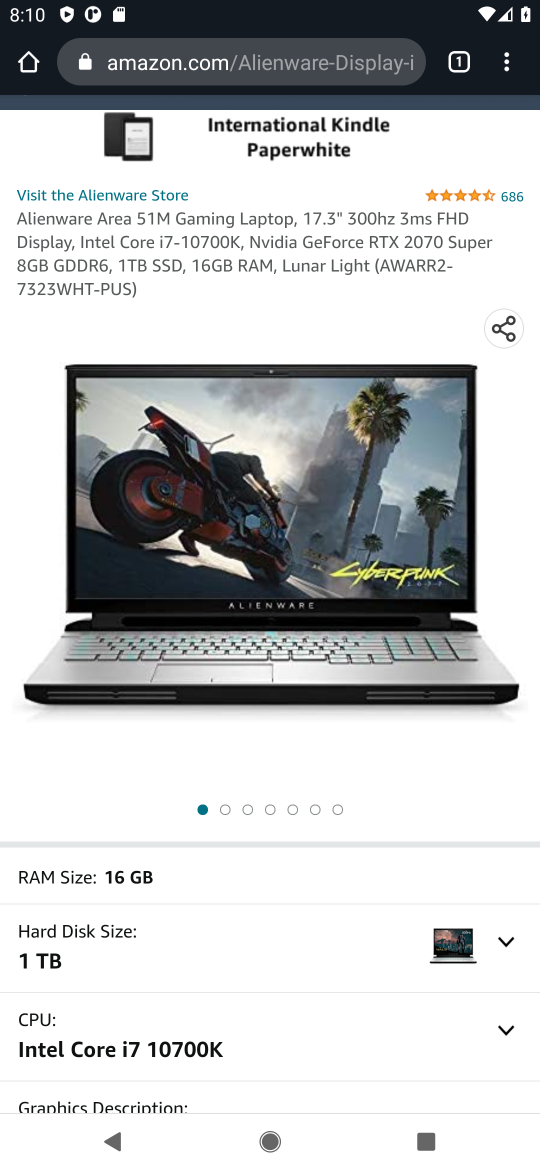
Step 45: click (227, 540)
Your task to perform on an android device: Search for "alienware area 51" on amazon.com, select the first entry, add it to the cart, then select checkout. Image 46: 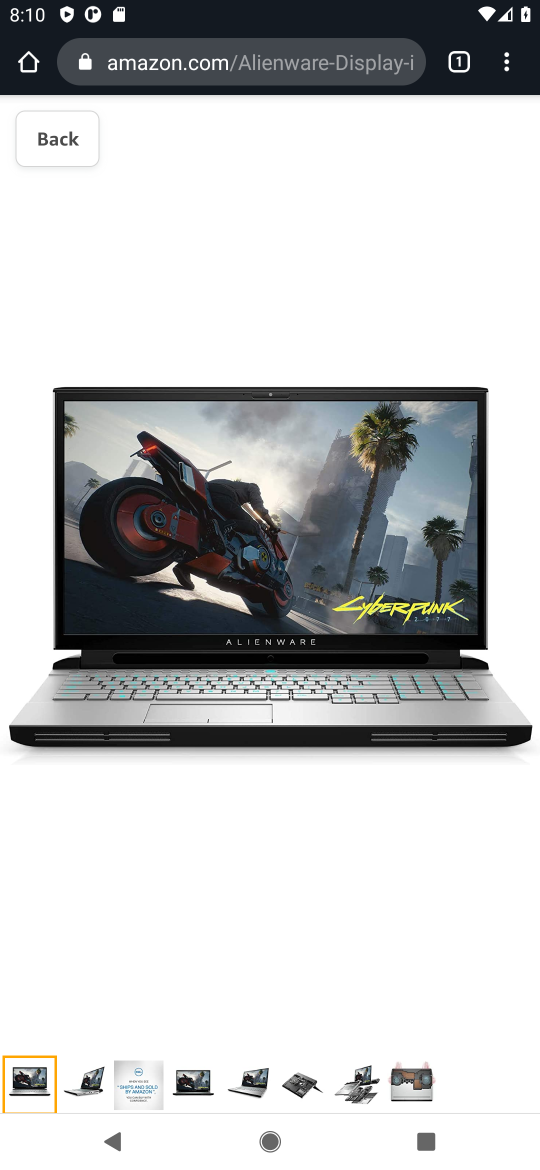
Step 46: drag from (196, 933) to (214, 193)
Your task to perform on an android device: Search for "alienware area 51" on amazon.com, select the first entry, add it to the cart, then select checkout. Image 47: 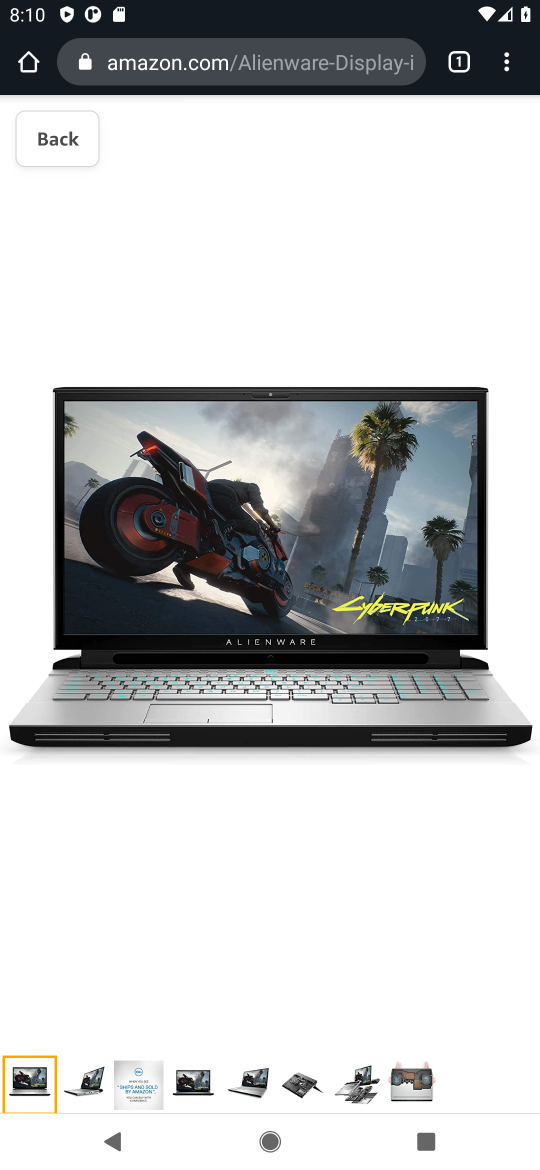
Step 47: drag from (190, 803) to (189, 399)
Your task to perform on an android device: Search for "alienware area 51" on amazon.com, select the first entry, add it to the cart, then select checkout. Image 48: 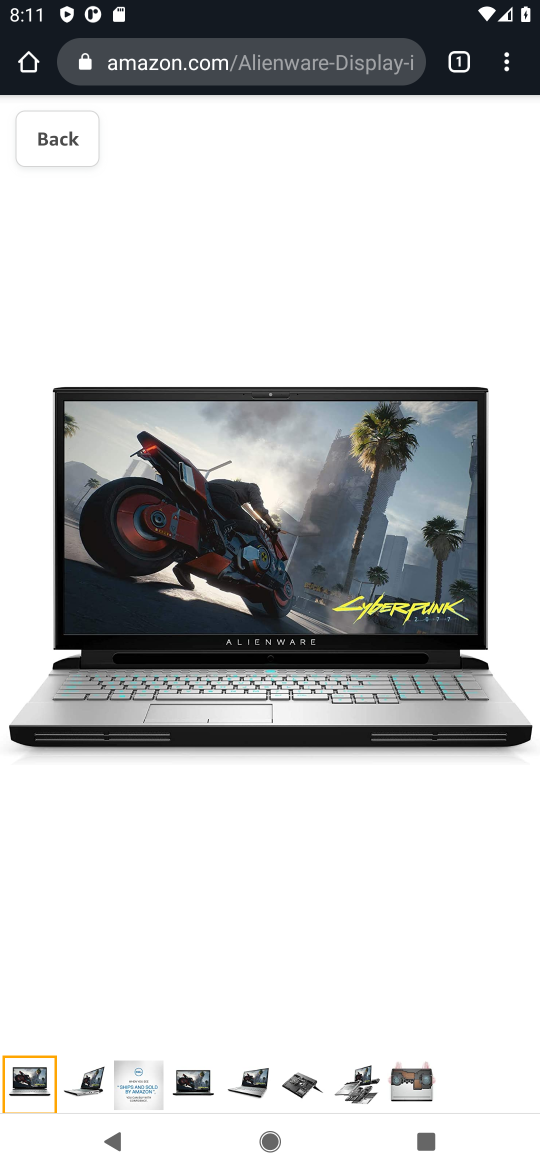
Step 48: press back button
Your task to perform on an android device: Search for "alienware area 51" on amazon.com, select the first entry, add it to the cart, then select checkout. Image 49: 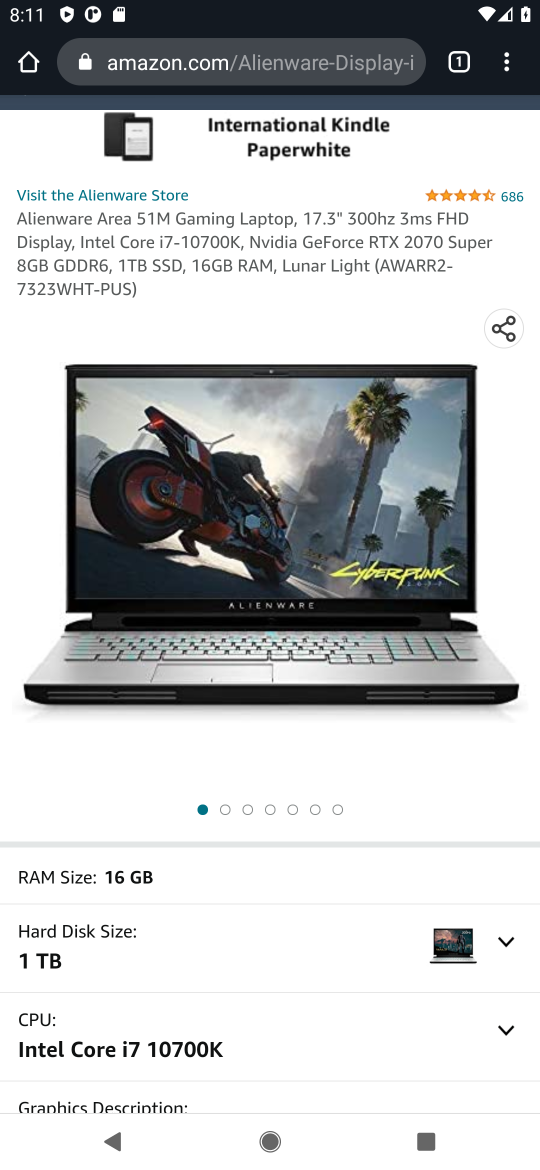
Step 49: drag from (199, 882) to (200, 472)
Your task to perform on an android device: Search for "alienware area 51" on amazon.com, select the first entry, add it to the cart, then select checkout. Image 50: 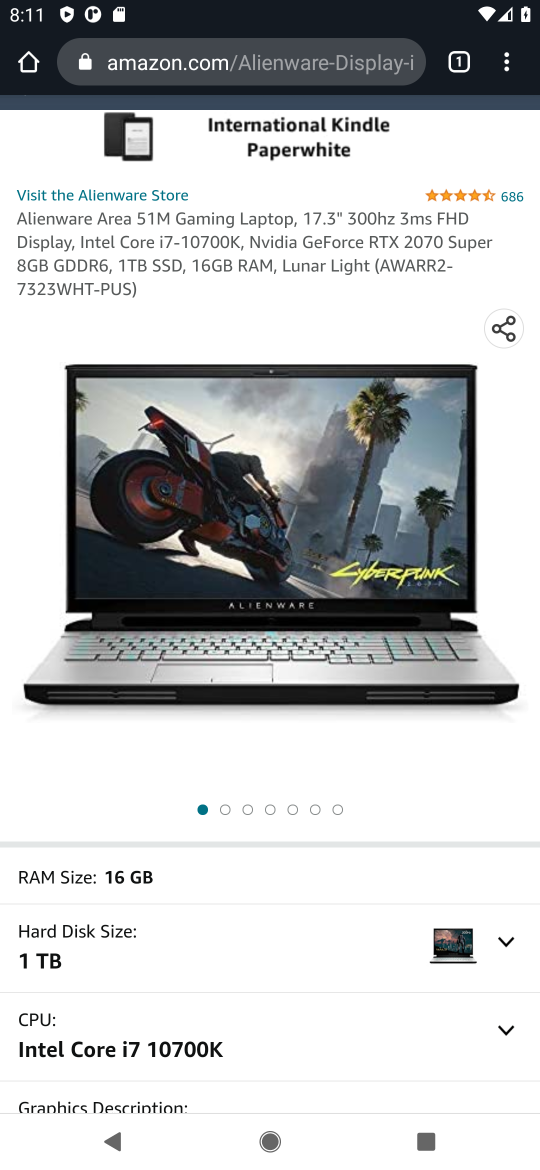
Step 50: drag from (209, 1046) to (244, 67)
Your task to perform on an android device: Search for "alienware area 51" on amazon.com, select the first entry, add it to the cart, then select checkout. Image 51: 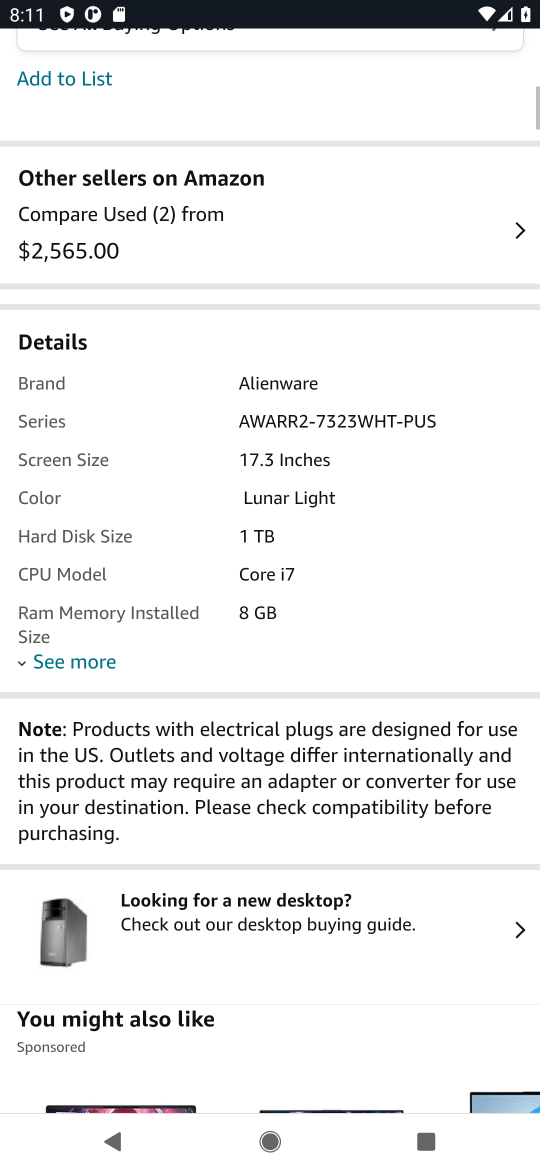
Step 51: drag from (208, 956) to (249, 218)
Your task to perform on an android device: Search for "alienware area 51" on amazon.com, select the first entry, add it to the cart, then select checkout. Image 52: 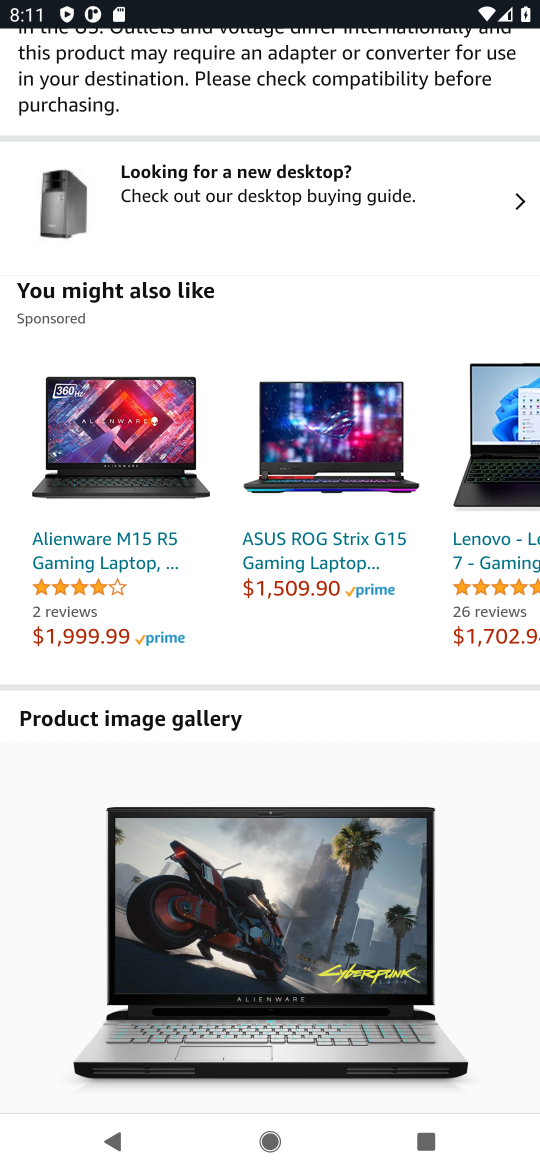
Step 52: click (301, 455)
Your task to perform on an android device: Search for "alienware area 51" on amazon.com, select the first entry, add it to the cart, then select checkout. Image 53: 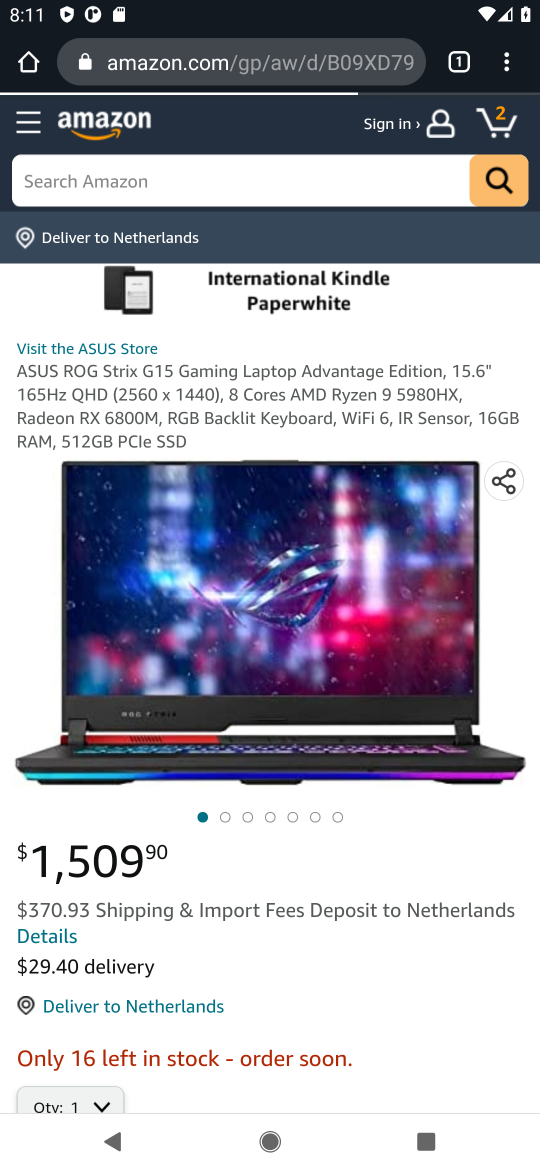
Step 53: drag from (210, 699) to (232, 78)
Your task to perform on an android device: Search for "alienware area 51" on amazon.com, select the first entry, add it to the cart, then select checkout. Image 54: 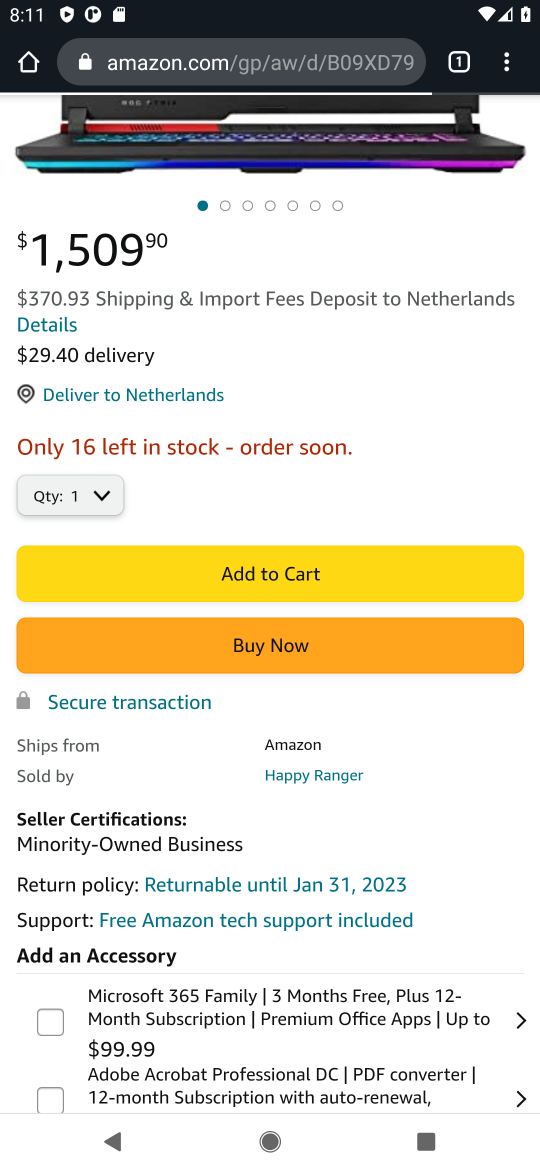
Step 54: click (248, 572)
Your task to perform on an android device: Search for "alienware area 51" on amazon.com, select the first entry, add it to the cart, then select checkout. Image 55: 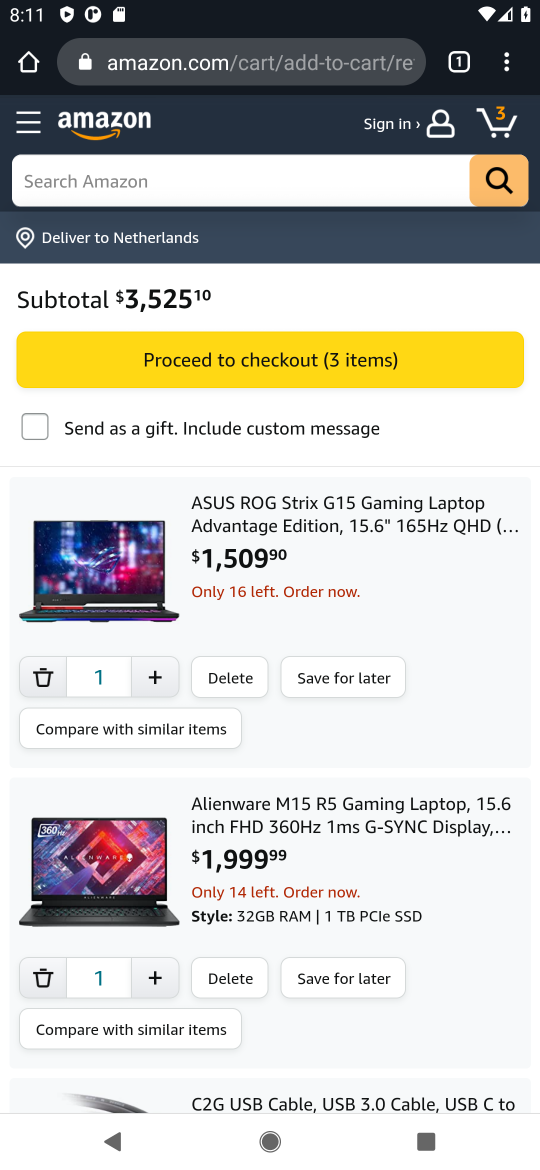
Step 55: click (199, 368)
Your task to perform on an android device: Search for "alienware area 51" on amazon.com, select the first entry, add it to the cart, then select checkout. Image 56: 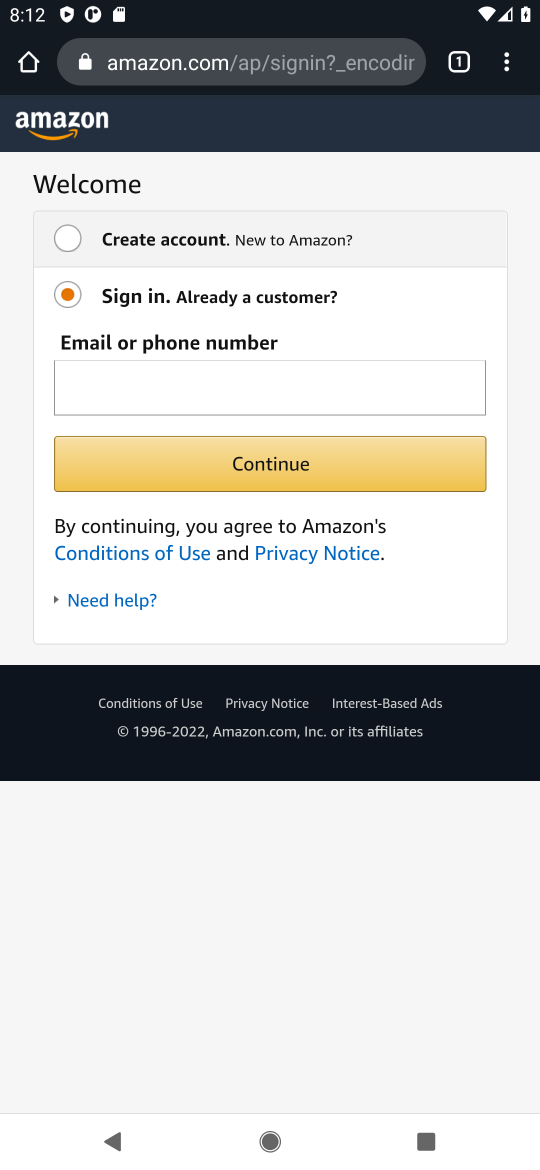
Step 56: task complete